Your task to perform on an android device: turn pop-ups on in chrome Image 0: 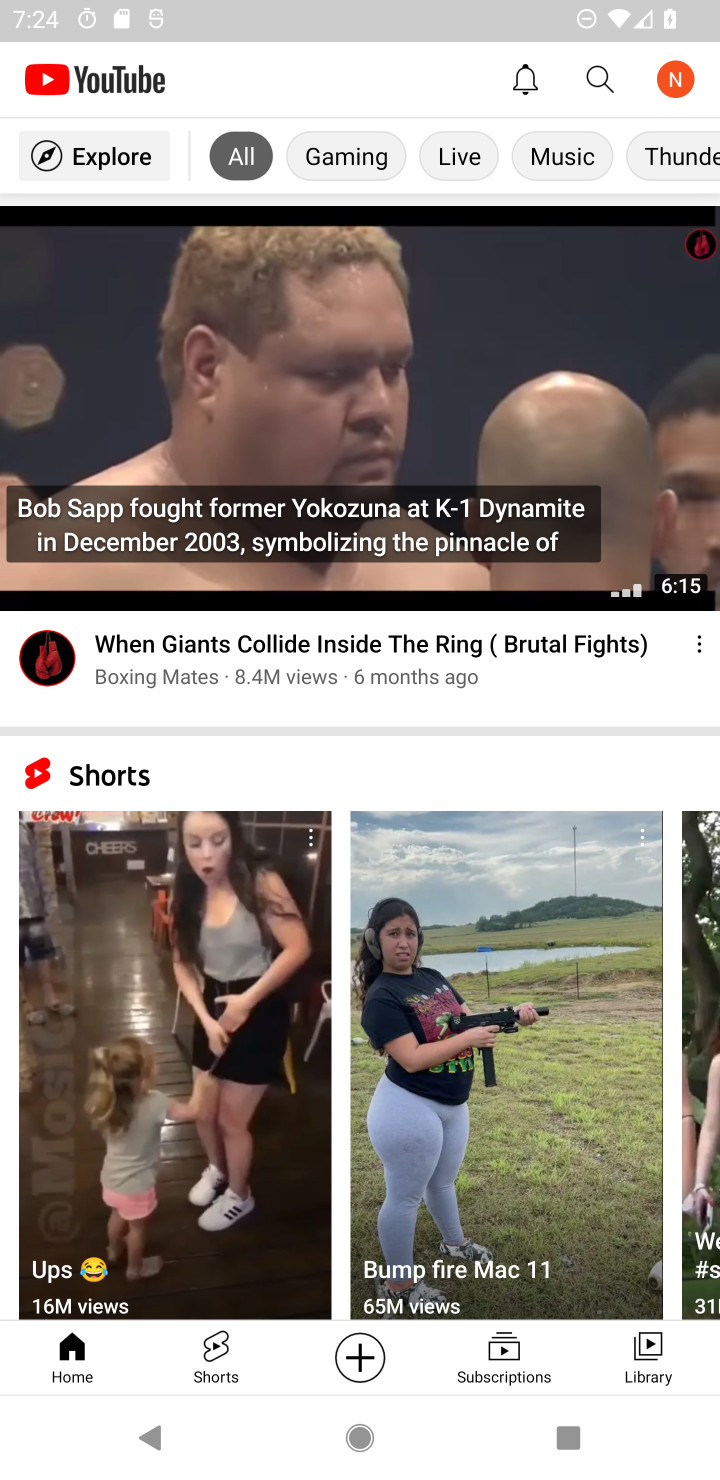
Step 0: drag from (350, 1062) to (360, 696)
Your task to perform on an android device: turn pop-ups on in chrome Image 1: 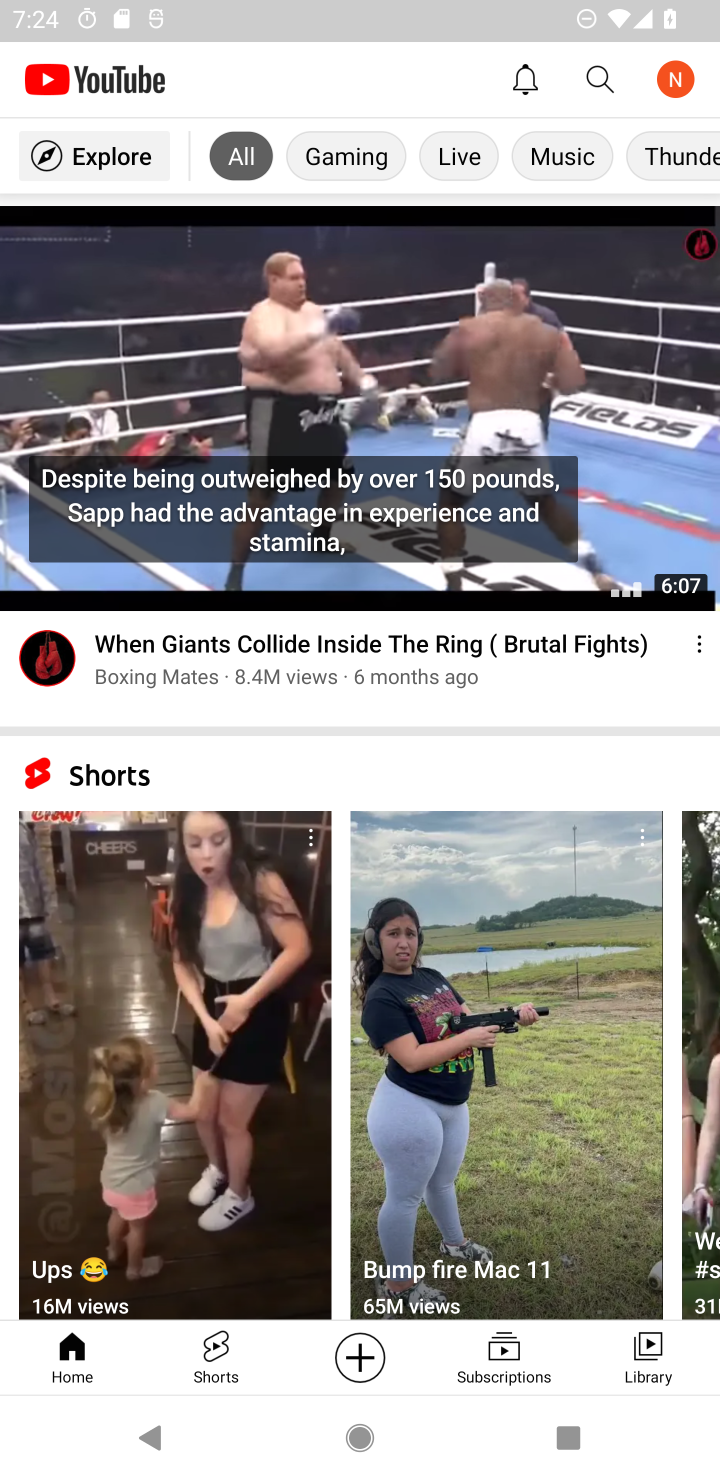
Step 1: drag from (341, 1254) to (484, 385)
Your task to perform on an android device: turn pop-ups on in chrome Image 2: 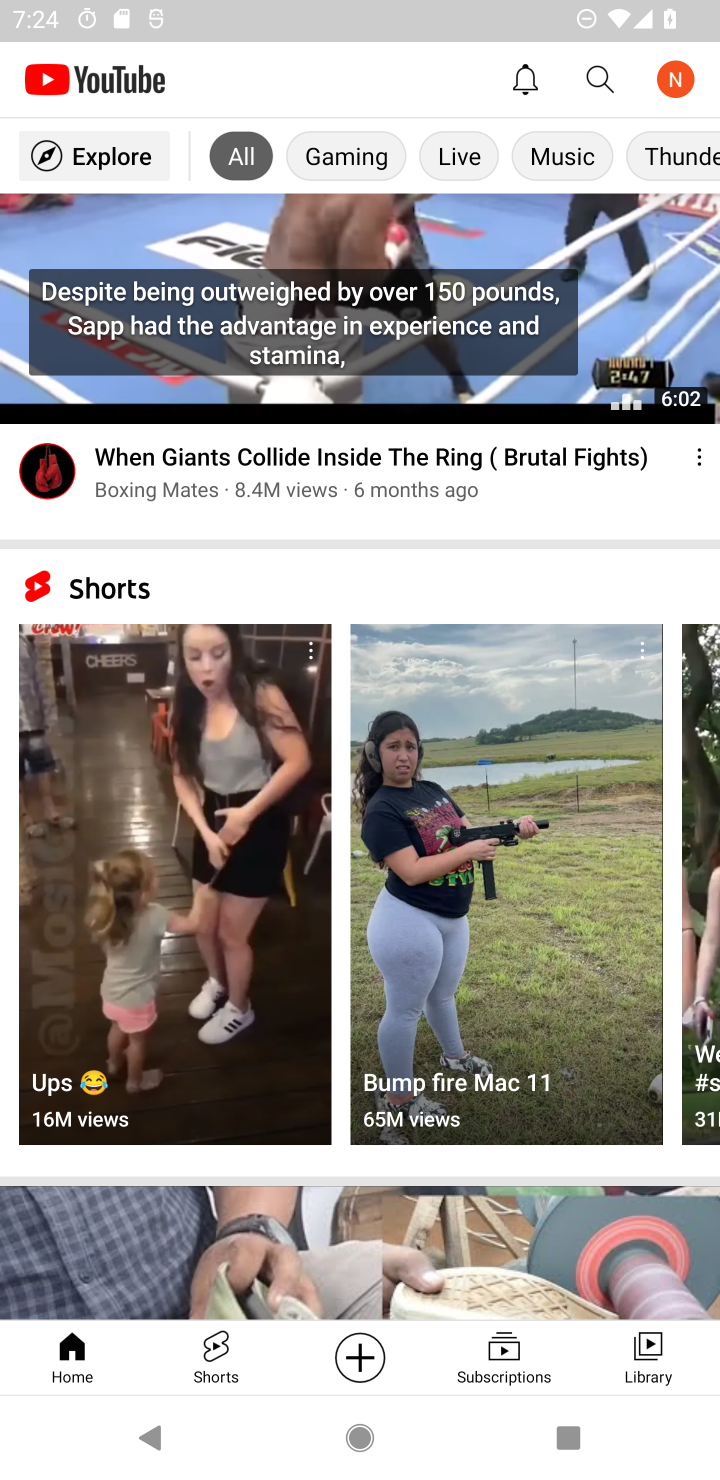
Step 2: click (390, 298)
Your task to perform on an android device: turn pop-ups on in chrome Image 3: 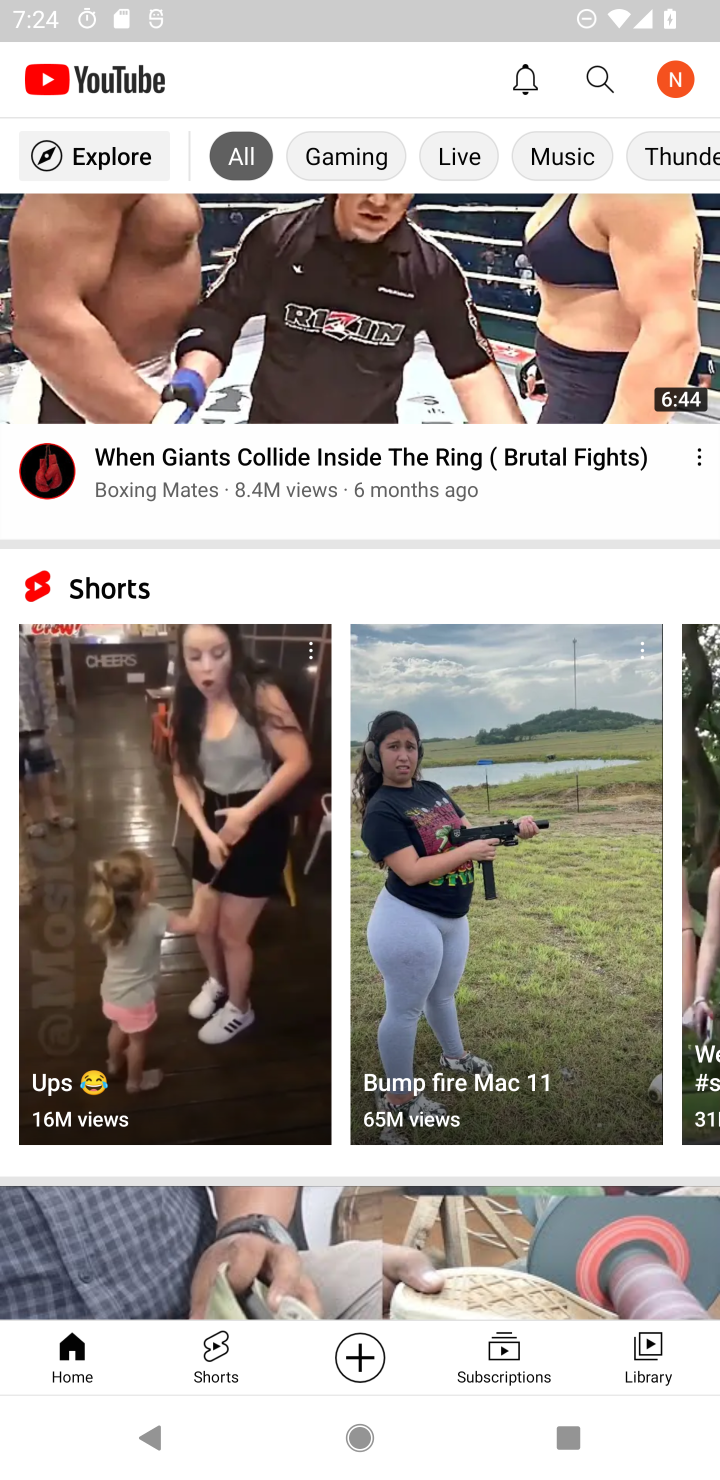
Step 3: drag from (390, 855) to (425, 599)
Your task to perform on an android device: turn pop-ups on in chrome Image 4: 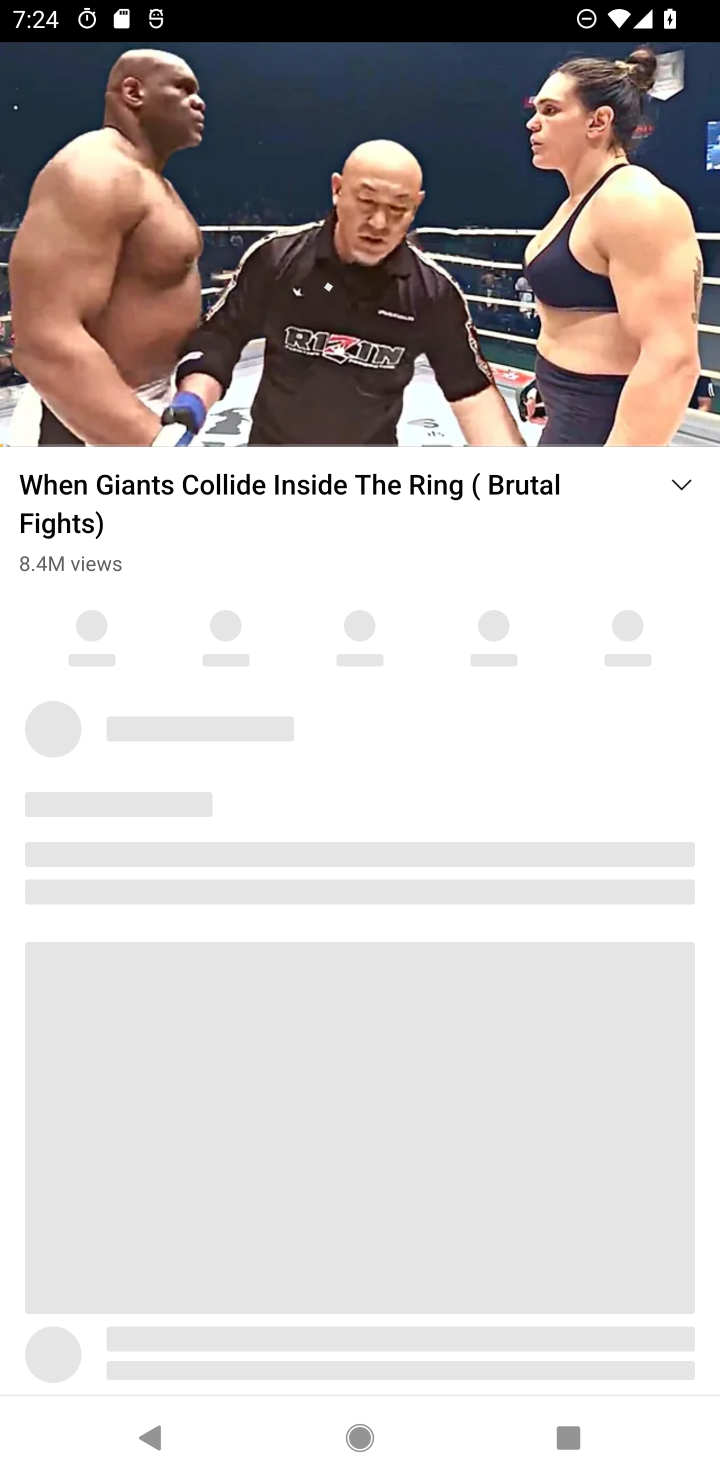
Step 4: drag from (509, 212) to (373, 1430)
Your task to perform on an android device: turn pop-ups on in chrome Image 5: 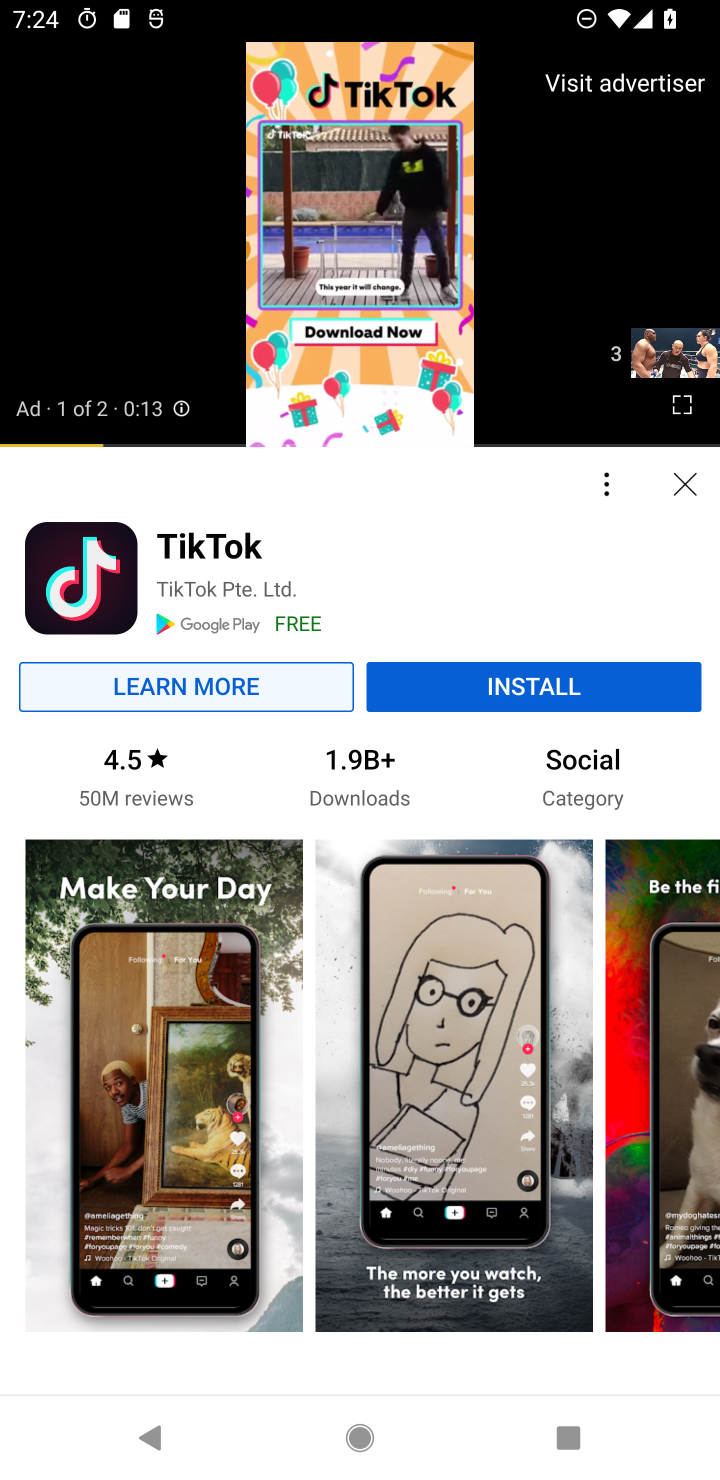
Step 5: drag from (478, 268) to (454, 1035)
Your task to perform on an android device: turn pop-ups on in chrome Image 6: 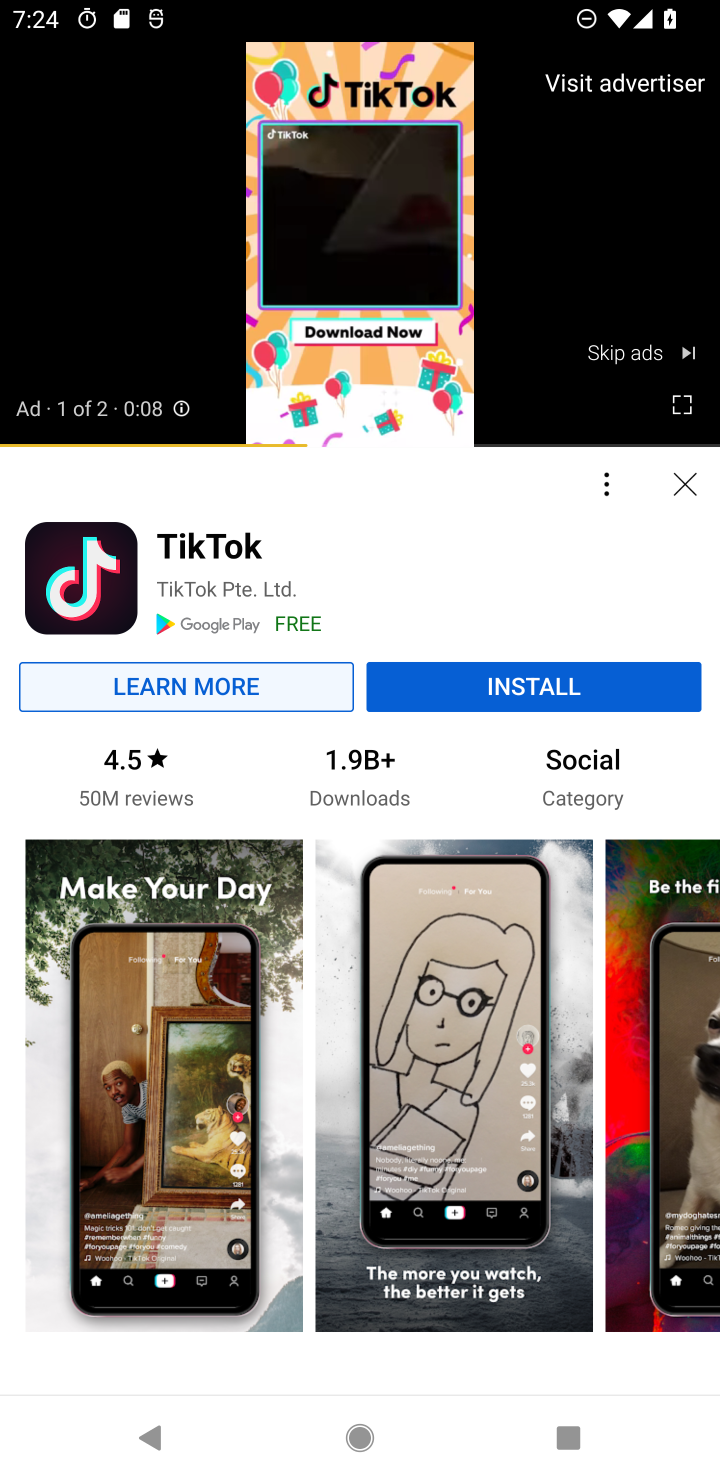
Step 6: press back button
Your task to perform on an android device: turn pop-ups on in chrome Image 7: 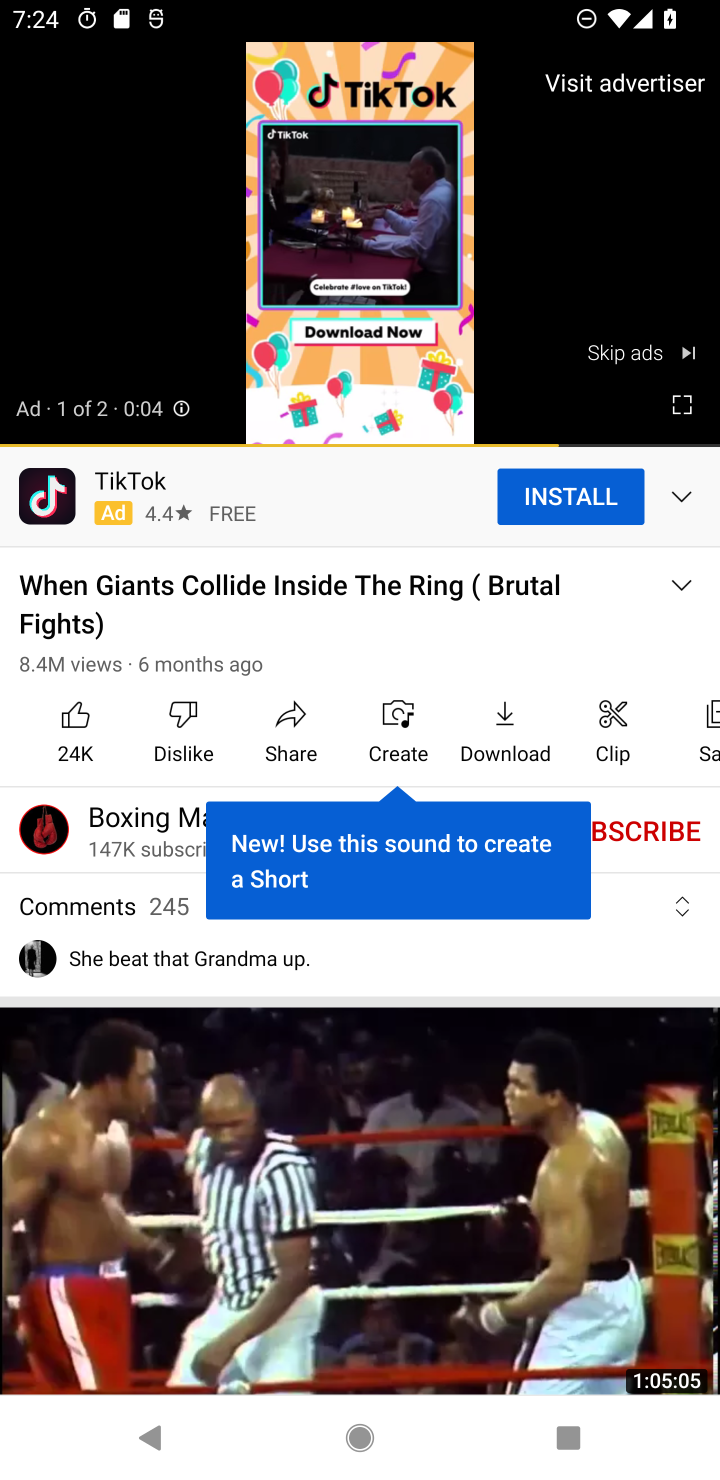
Step 7: drag from (361, 335) to (504, 1457)
Your task to perform on an android device: turn pop-ups on in chrome Image 8: 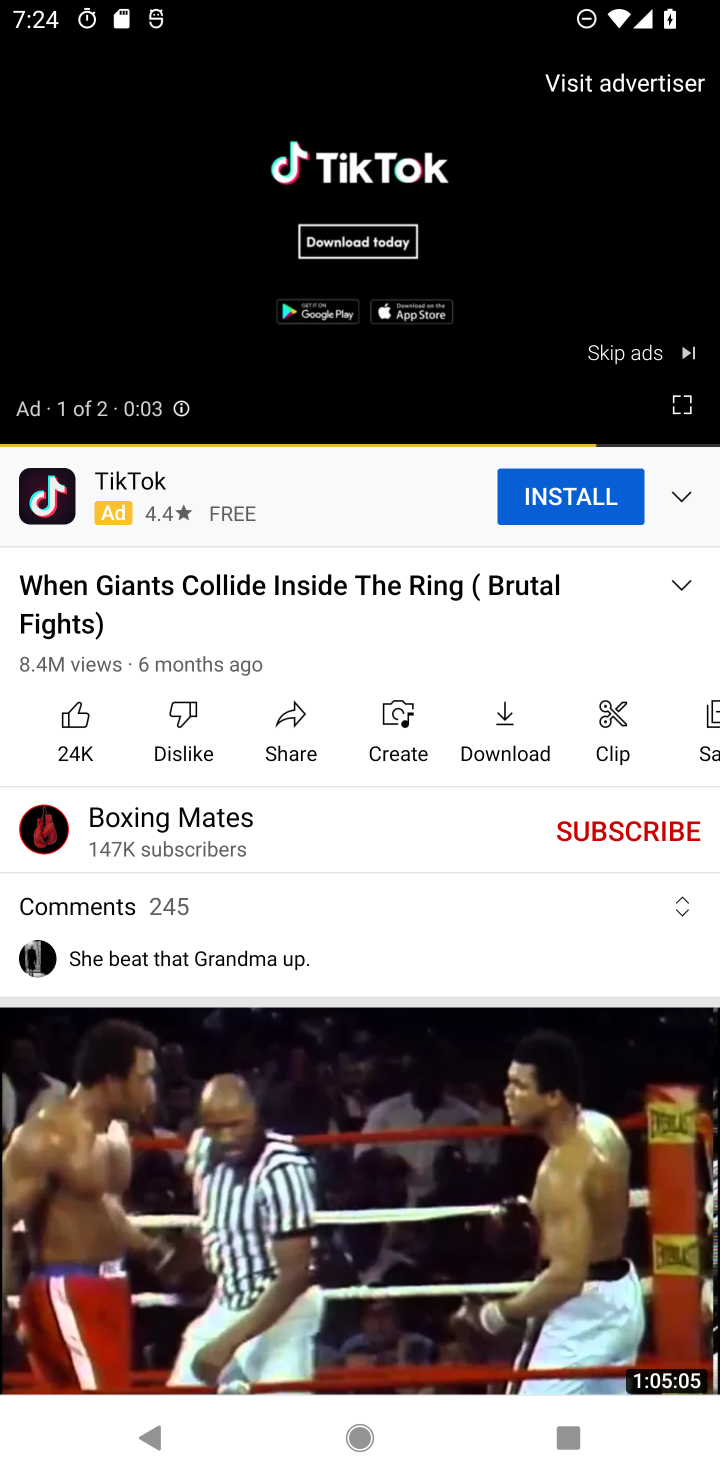
Step 8: click (360, 247)
Your task to perform on an android device: turn pop-ups on in chrome Image 9: 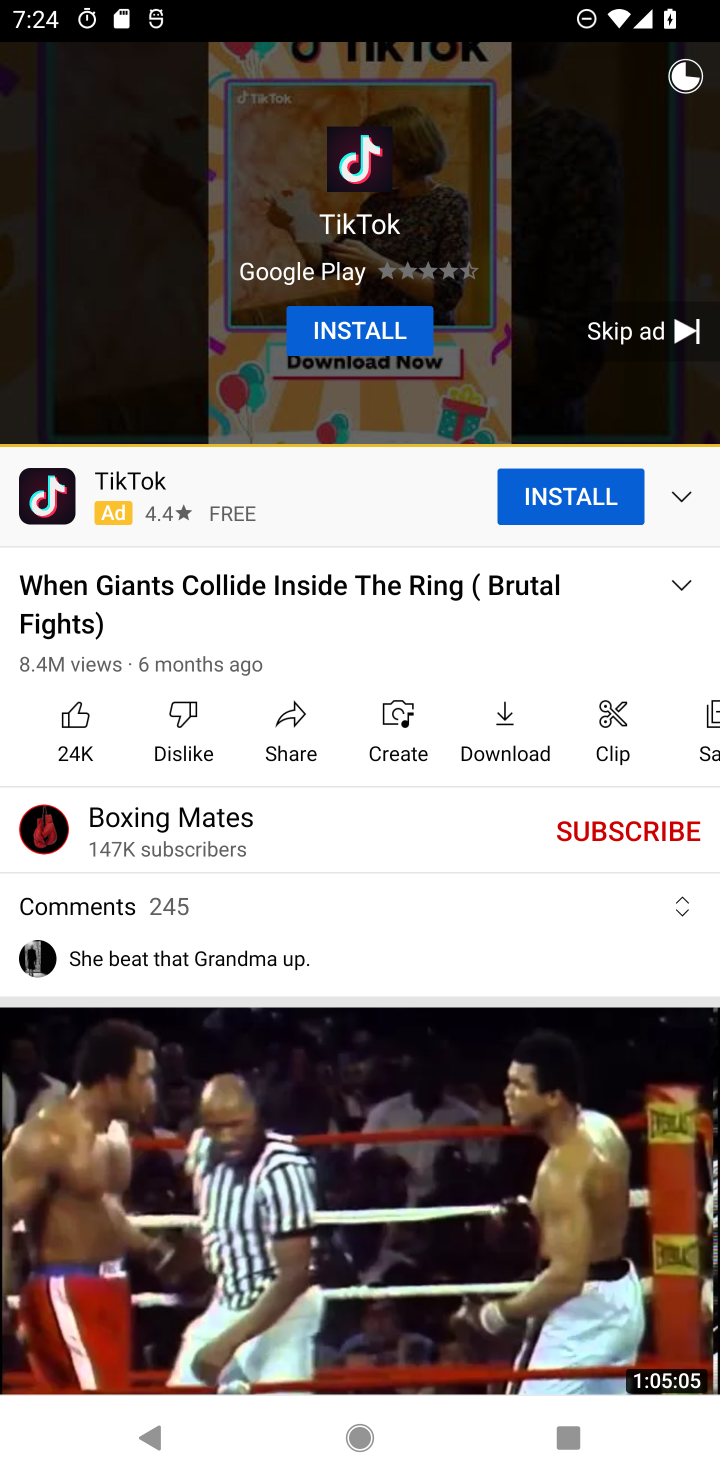
Step 9: press home button
Your task to perform on an android device: turn pop-ups on in chrome Image 10: 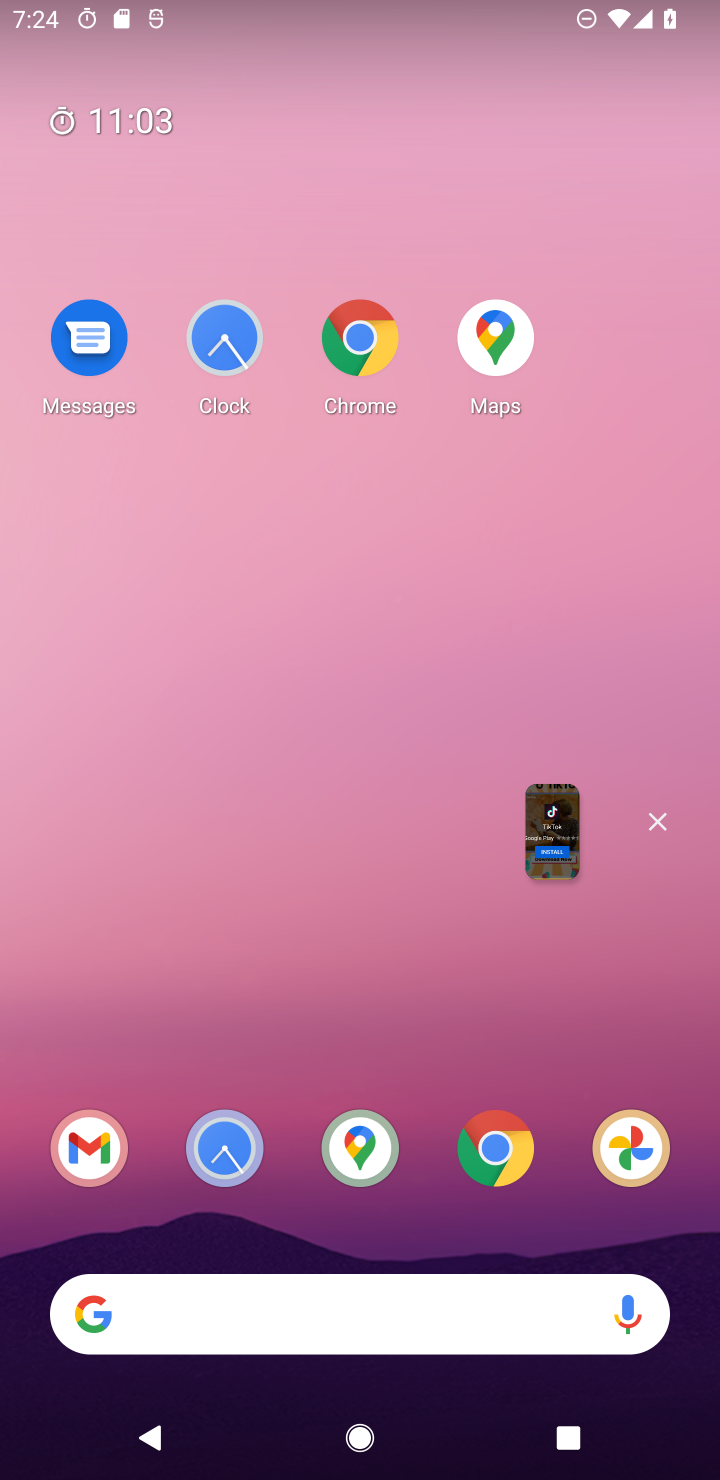
Step 10: press home button
Your task to perform on an android device: turn pop-ups on in chrome Image 11: 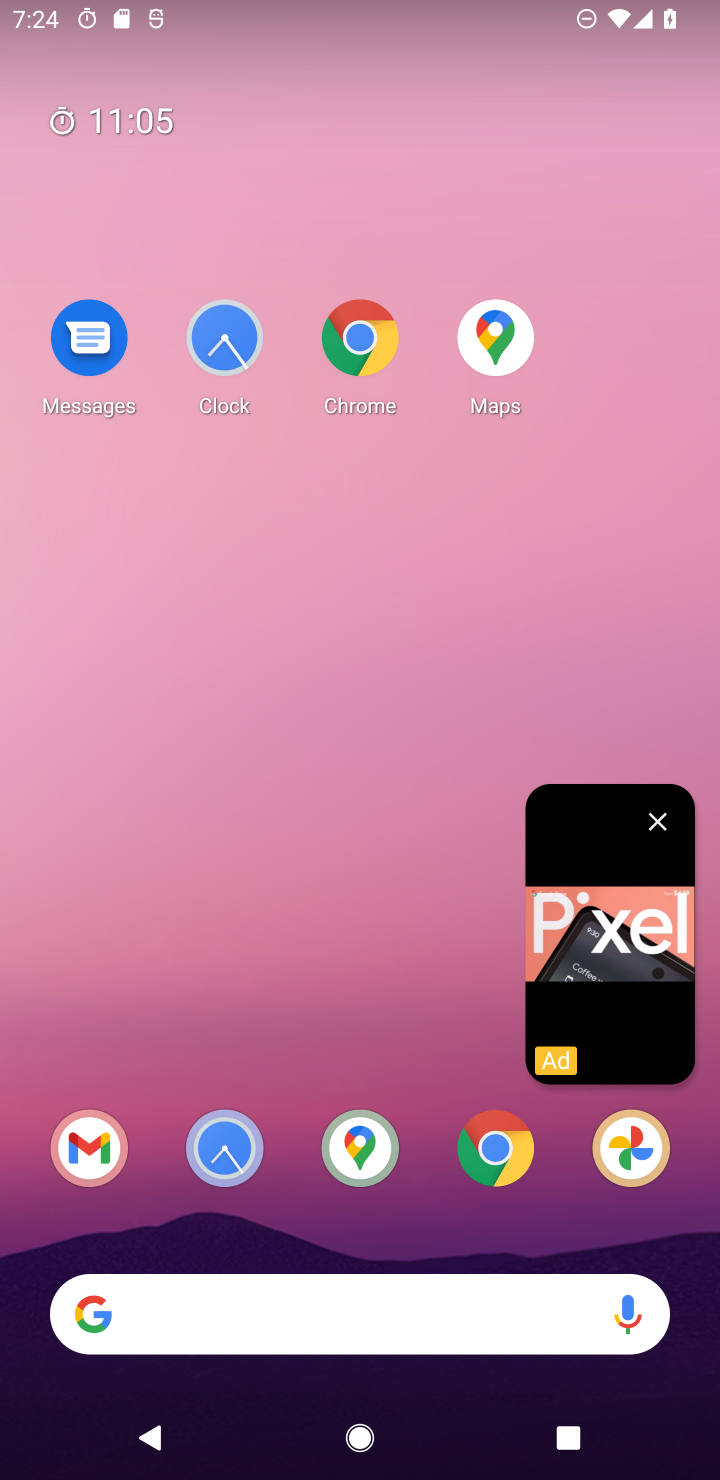
Step 11: click (663, 815)
Your task to perform on an android device: turn pop-ups on in chrome Image 12: 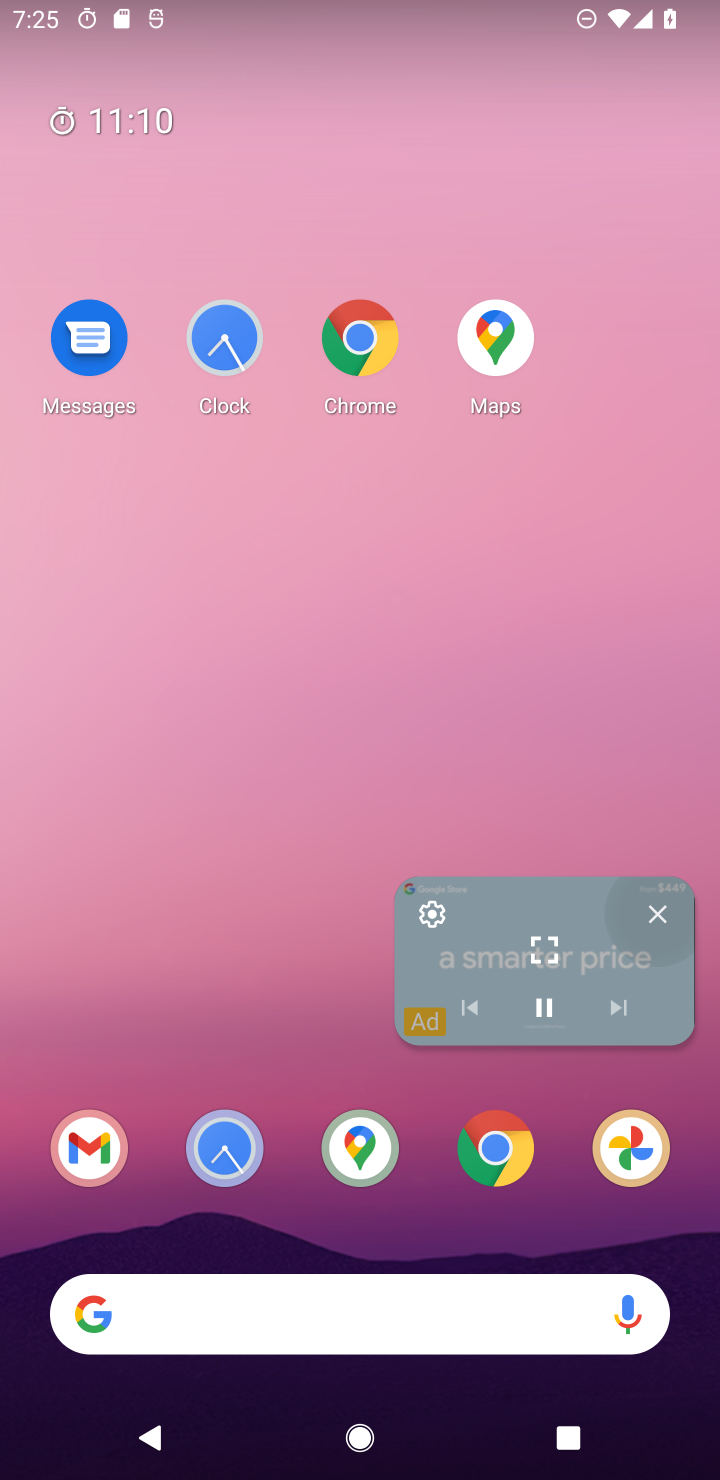
Step 12: click (657, 909)
Your task to perform on an android device: turn pop-ups on in chrome Image 13: 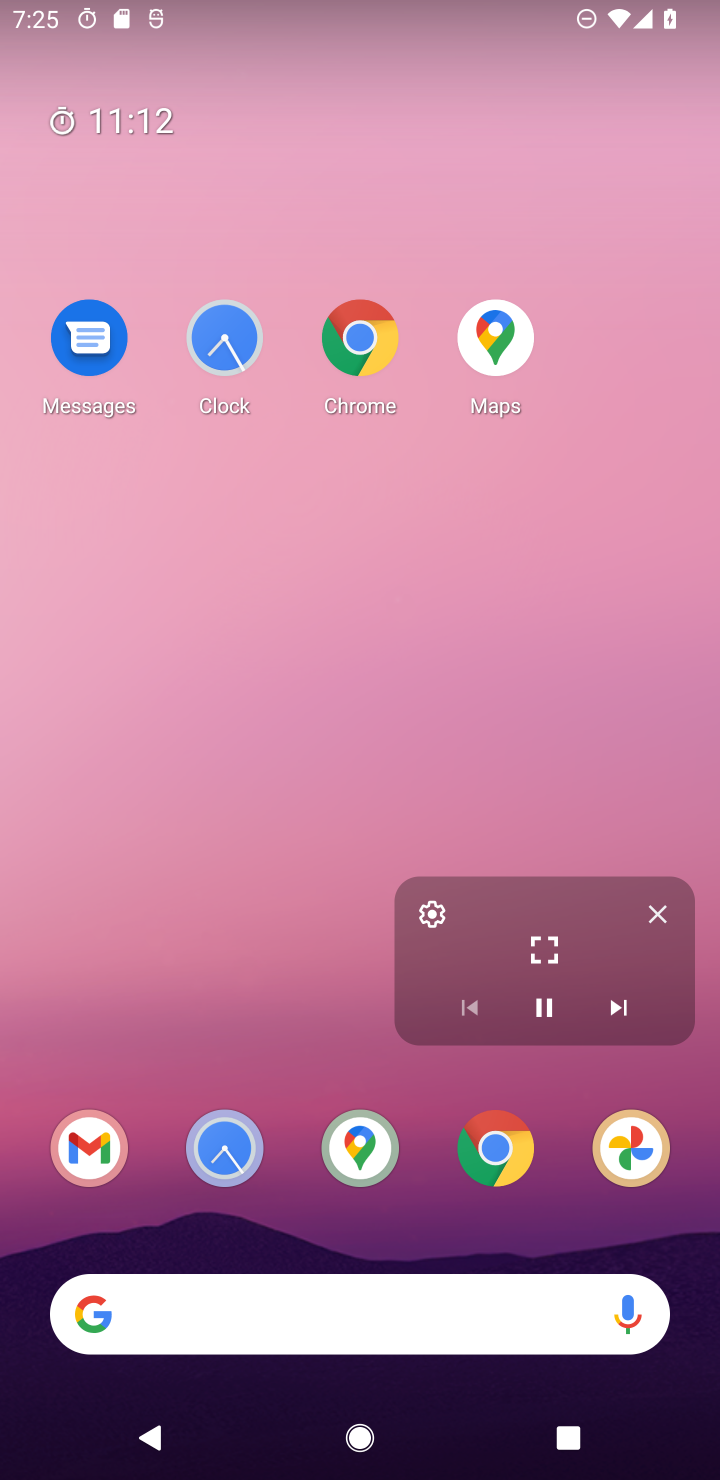
Step 13: drag from (368, 1199) to (489, 448)
Your task to perform on an android device: turn pop-ups on in chrome Image 14: 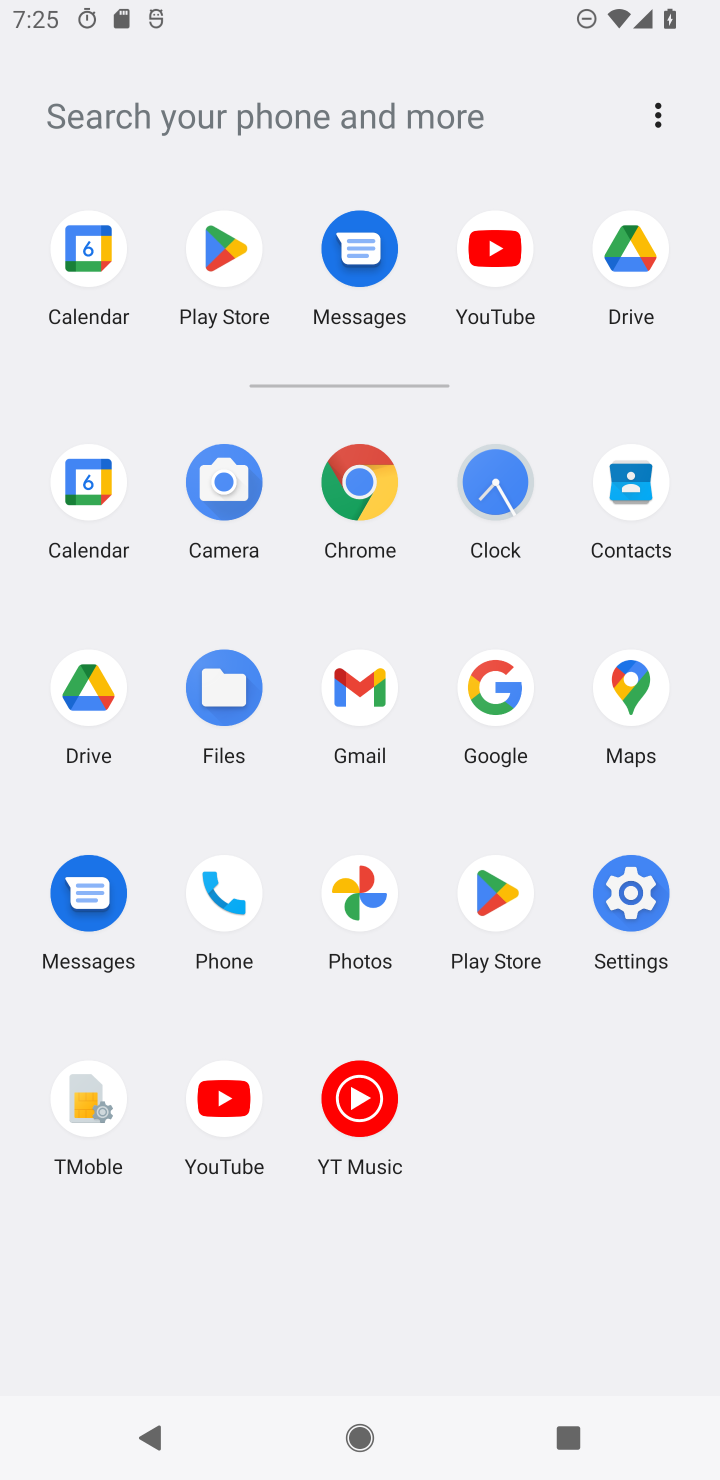
Step 14: click (342, 470)
Your task to perform on an android device: turn pop-ups on in chrome Image 15: 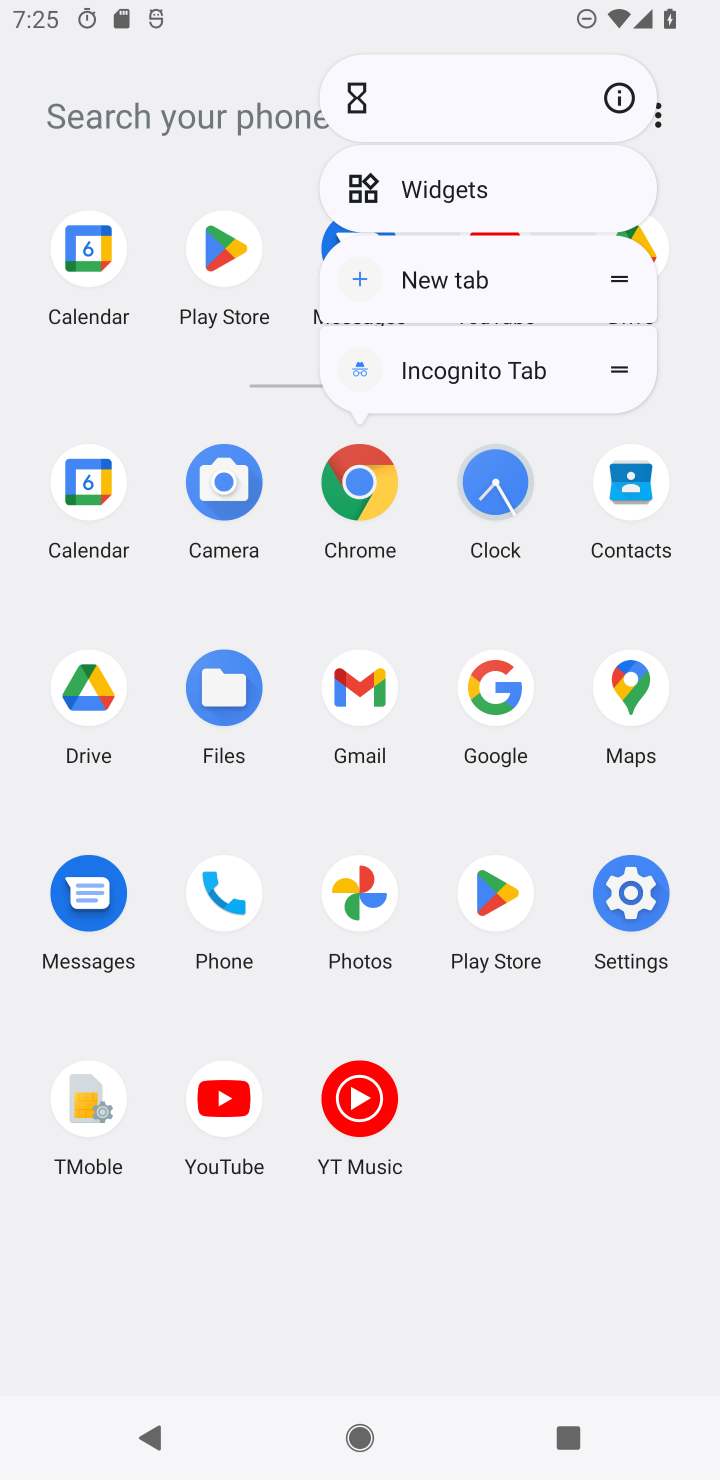
Step 15: click (616, 71)
Your task to perform on an android device: turn pop-ups on in chrome Image 16: 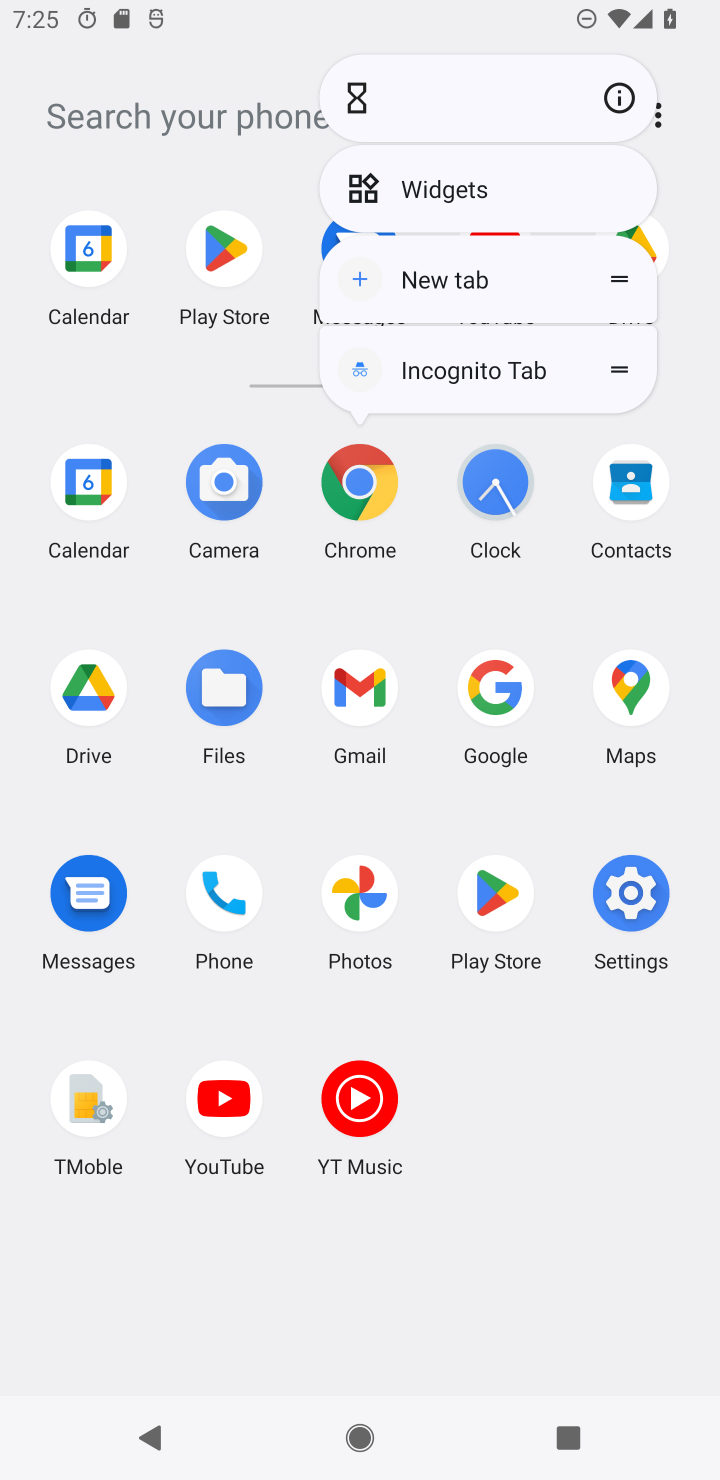
Step 16: click (590, 108)
Your task to perform on an android device: turn pop-ups on in chrome Image 17: 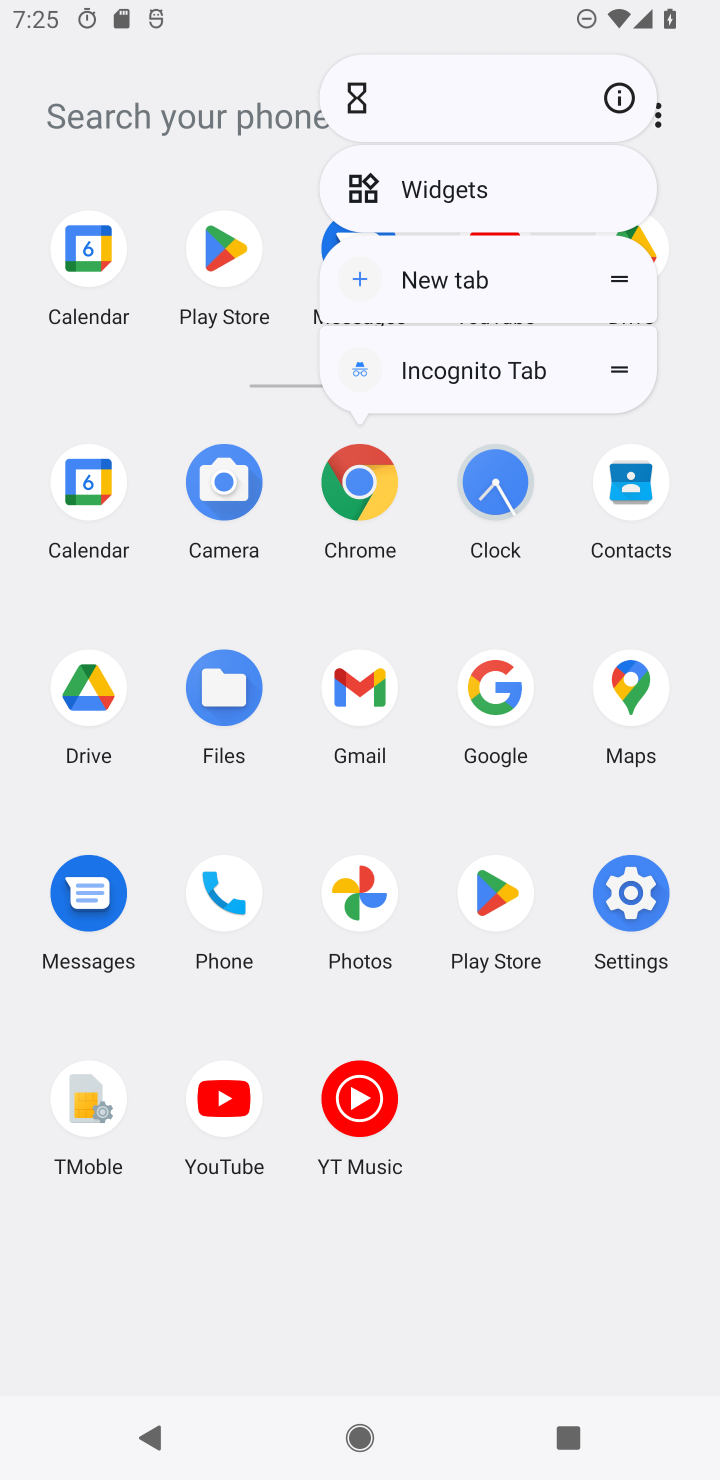
Step 17: click (616, 87)
Your task to perform on an android device: turn pop-ups on in chrome Image 18: 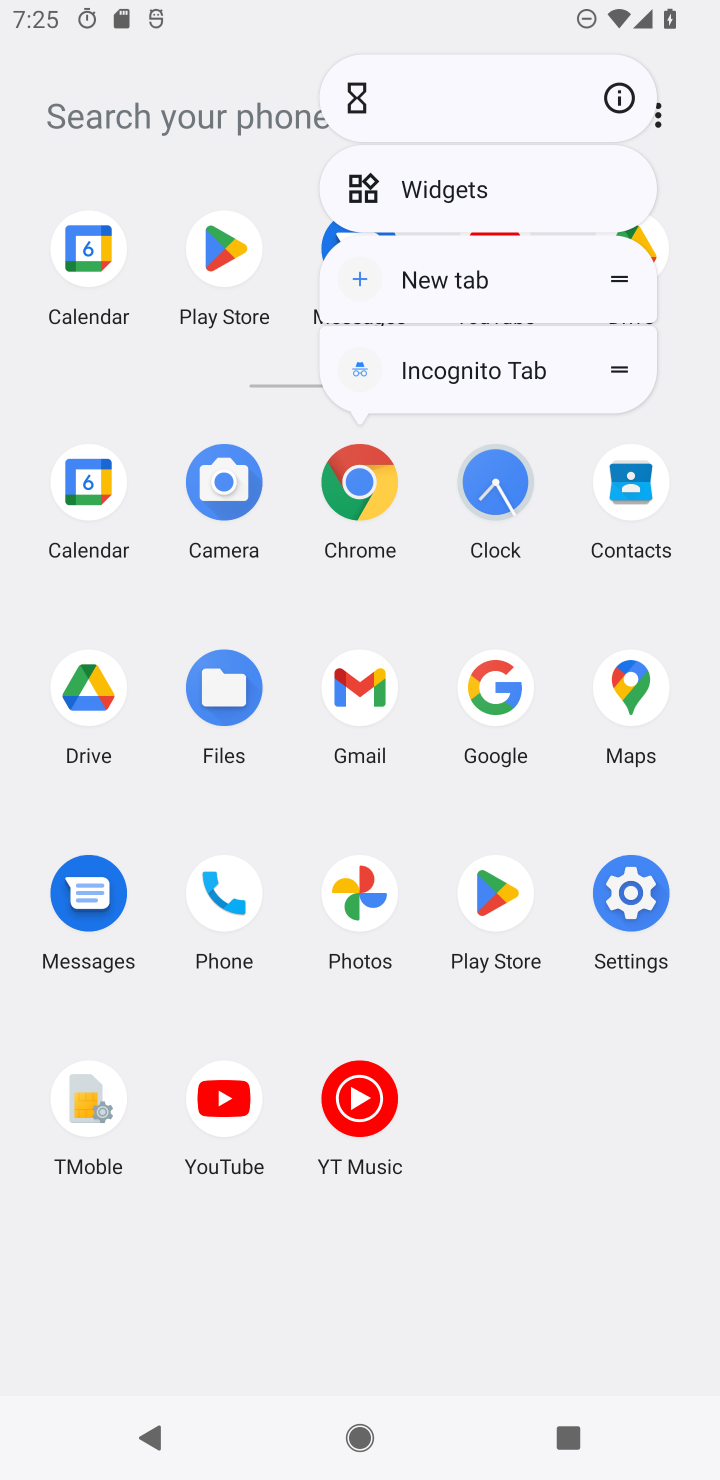
Step 18: click (353, 473)
Your task to perform on an android device: turn pop-ups on in chrome Image 19: 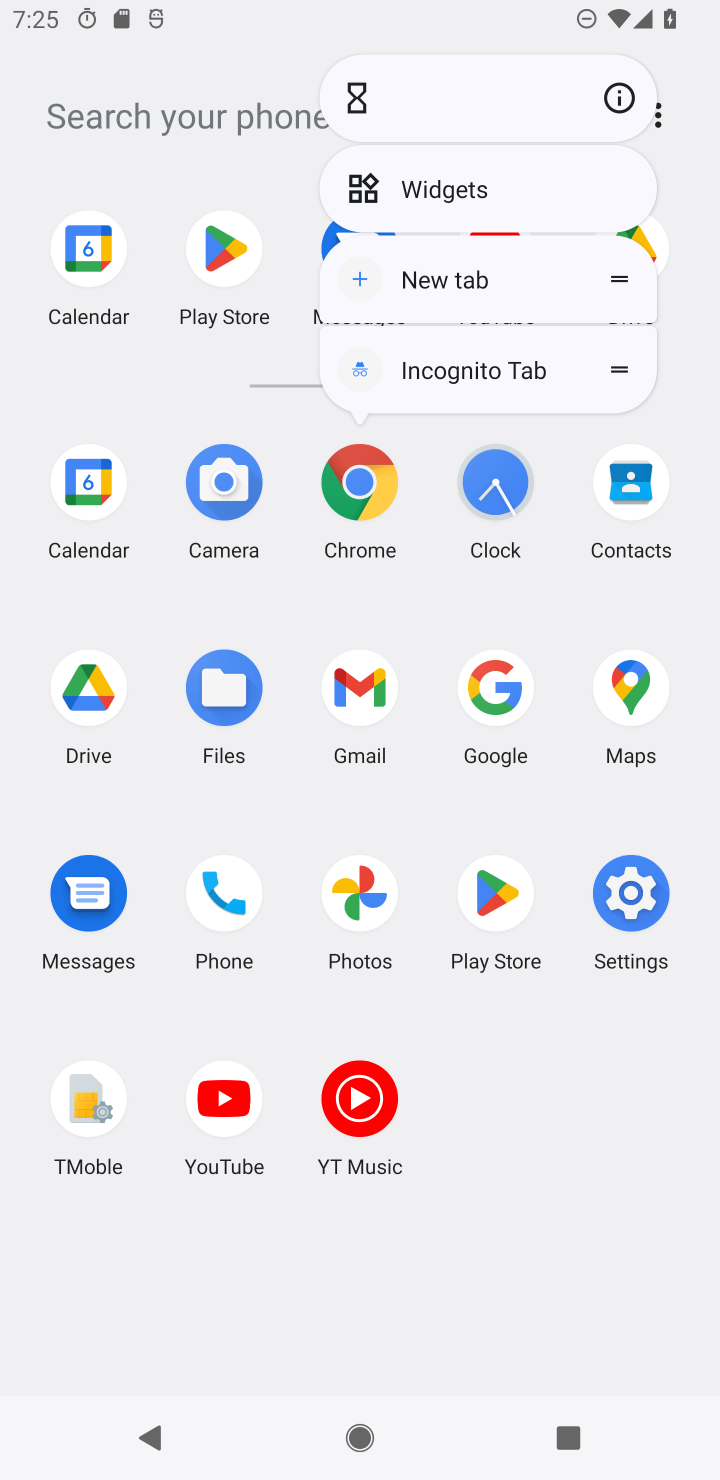
Step 19: click (380, 477)
Your task to perform on an android device: turn pop-ups on in chrome Image 20: 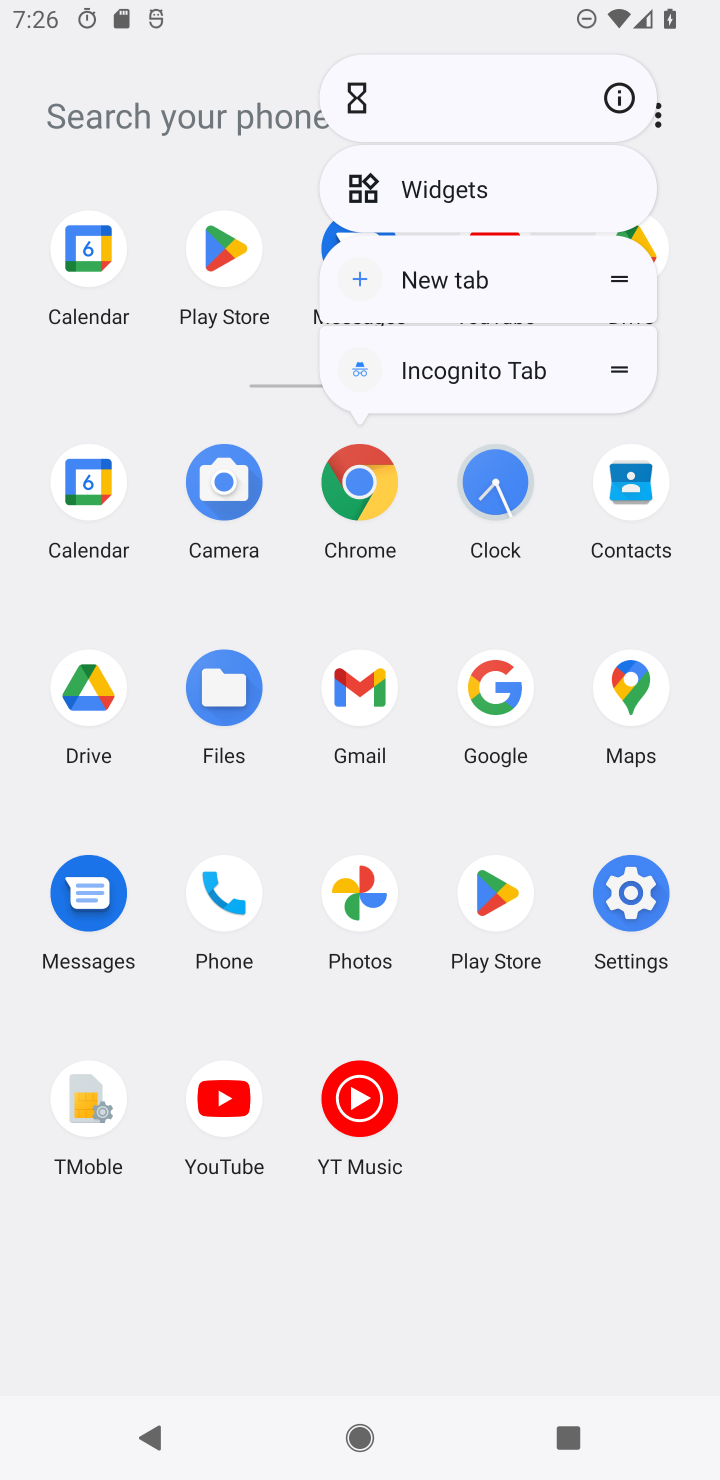
Step 20: drag from (460, 798) to (477, 493)
Your task to perform on an android device: turn pop-ups on in chrome Image 21: 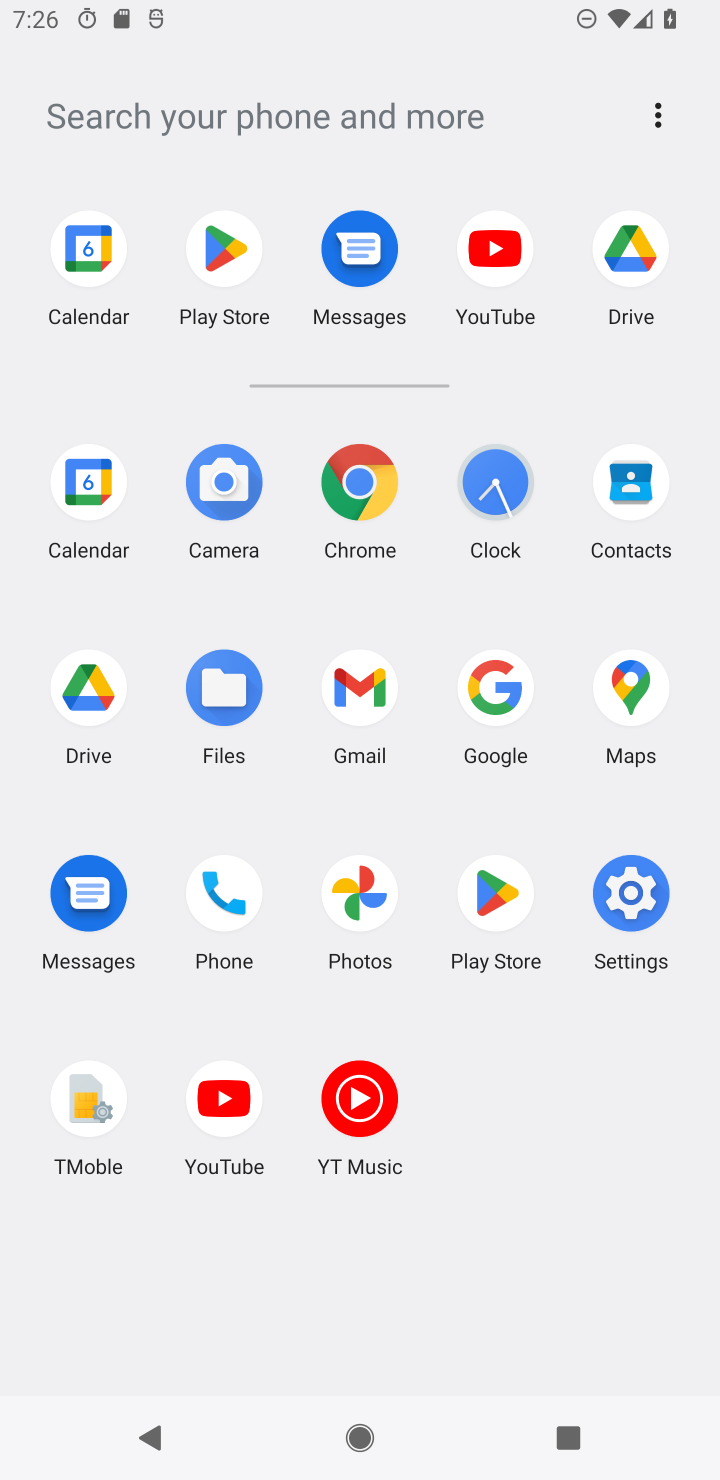
Step 21: click (331, 486)
Your task to perform on an android device: turn pop-ups on in chrome Image 22: 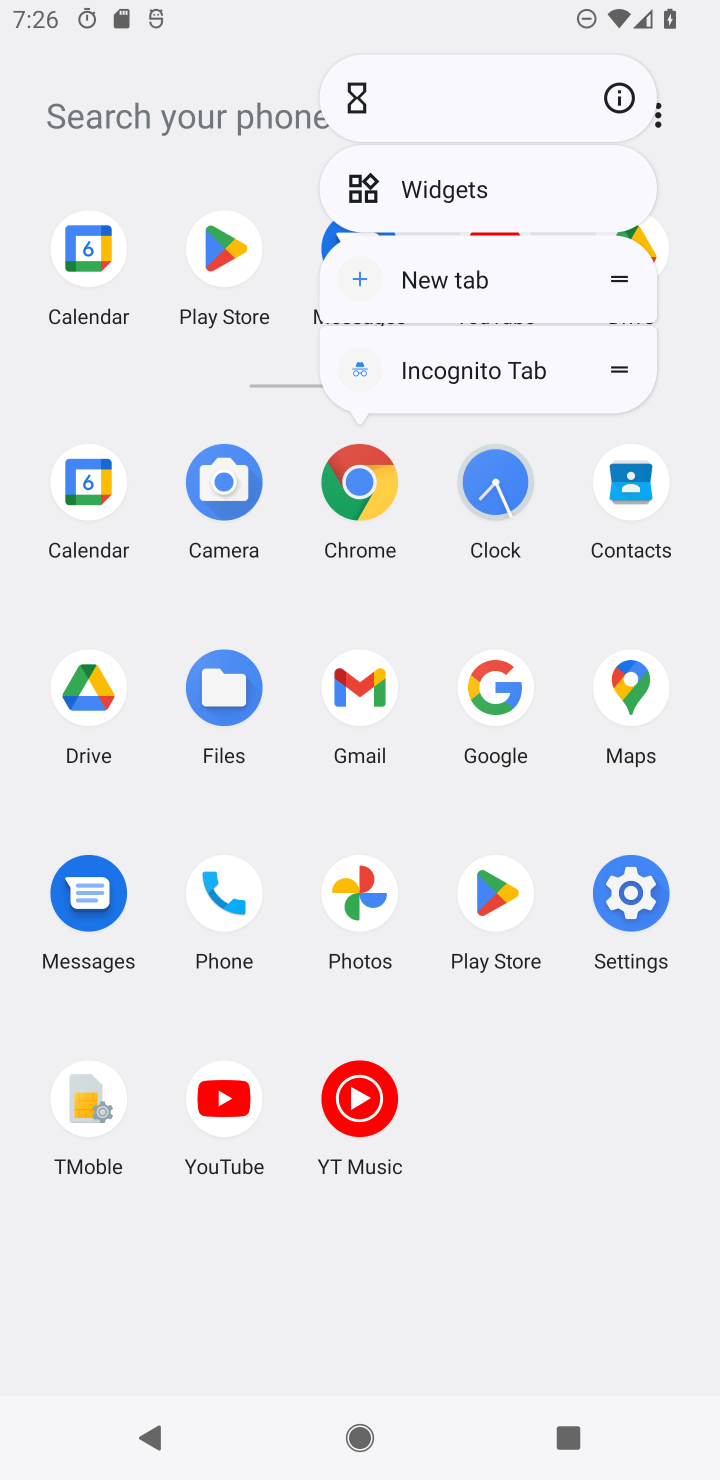
Step 22: click (619, 98)
Your task to perform on an android device: turn pop-ups on in chrome Image 23: 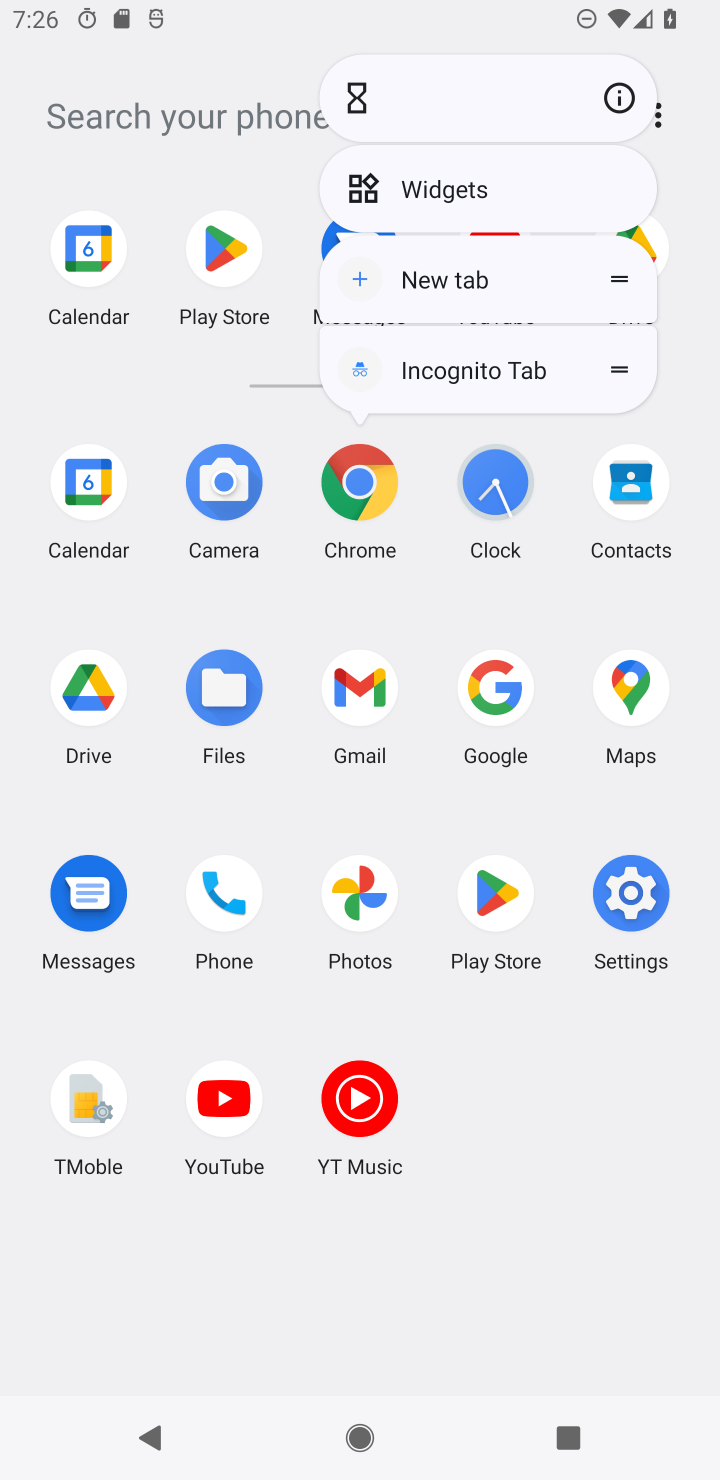
Step 23: click (350, 474)
Your task to perform on an android device: turn pop-ups on in chrome Image 24: 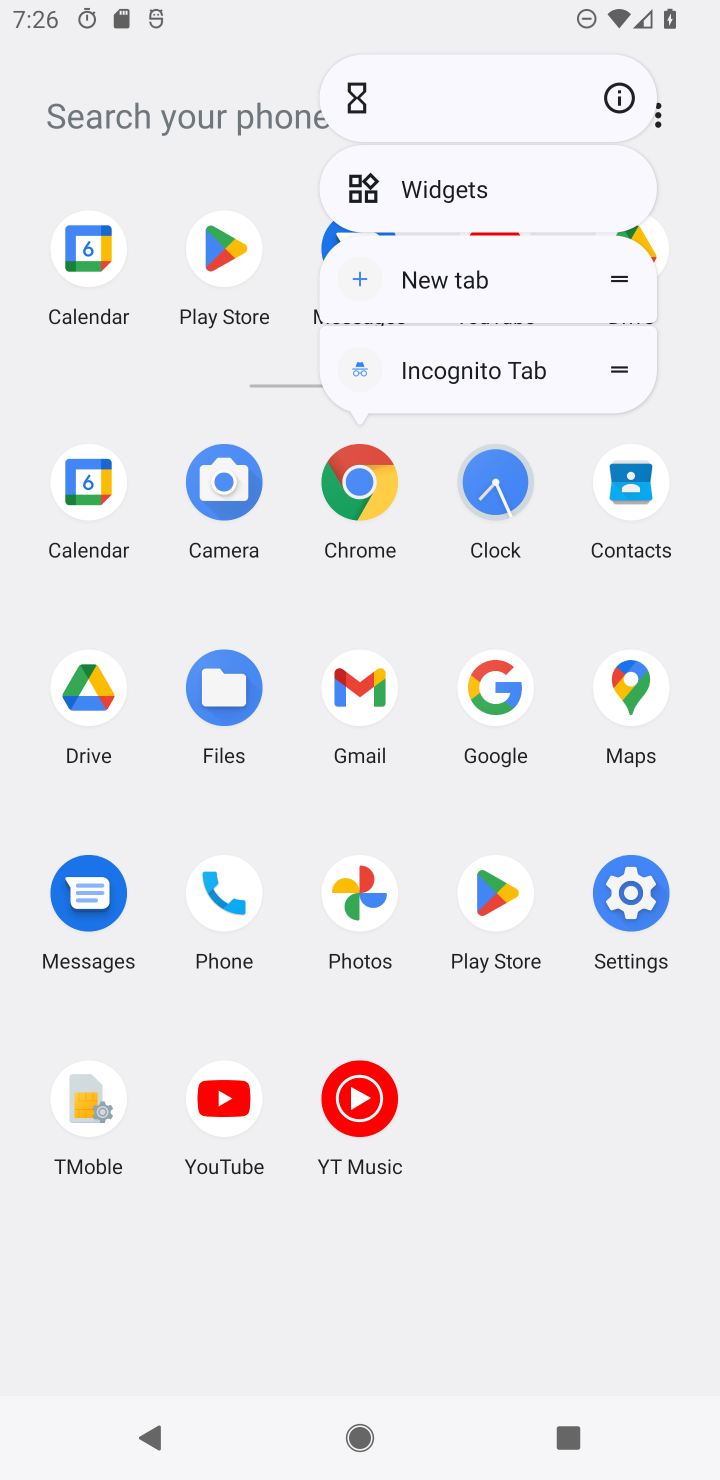
Step 24: click (365, 500)
Your task to perform on an android device: turn pop-ups on in chrome Image 25: 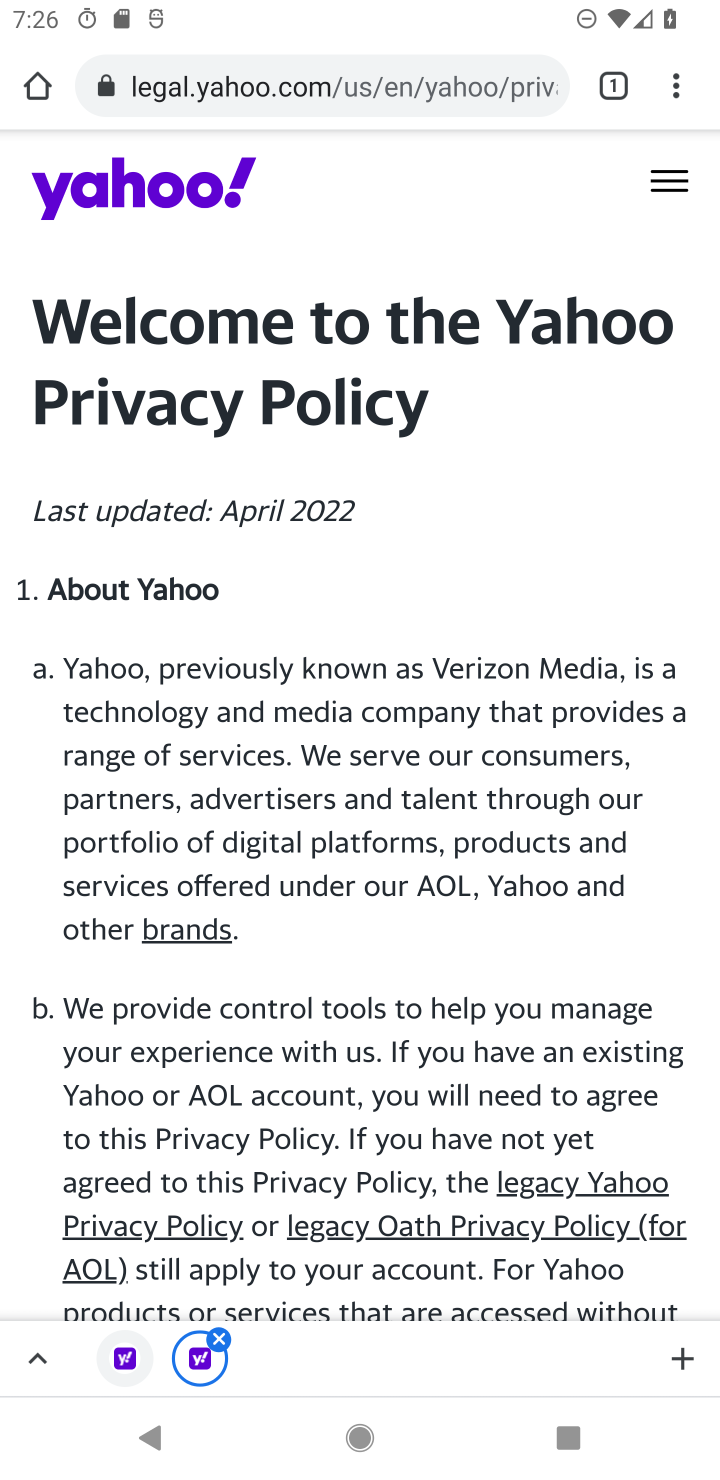
Step 25: drag from (665, 90) to (448, 1168)
Your task to perform on an android device: turn pop-ups on in chrome Image 26: 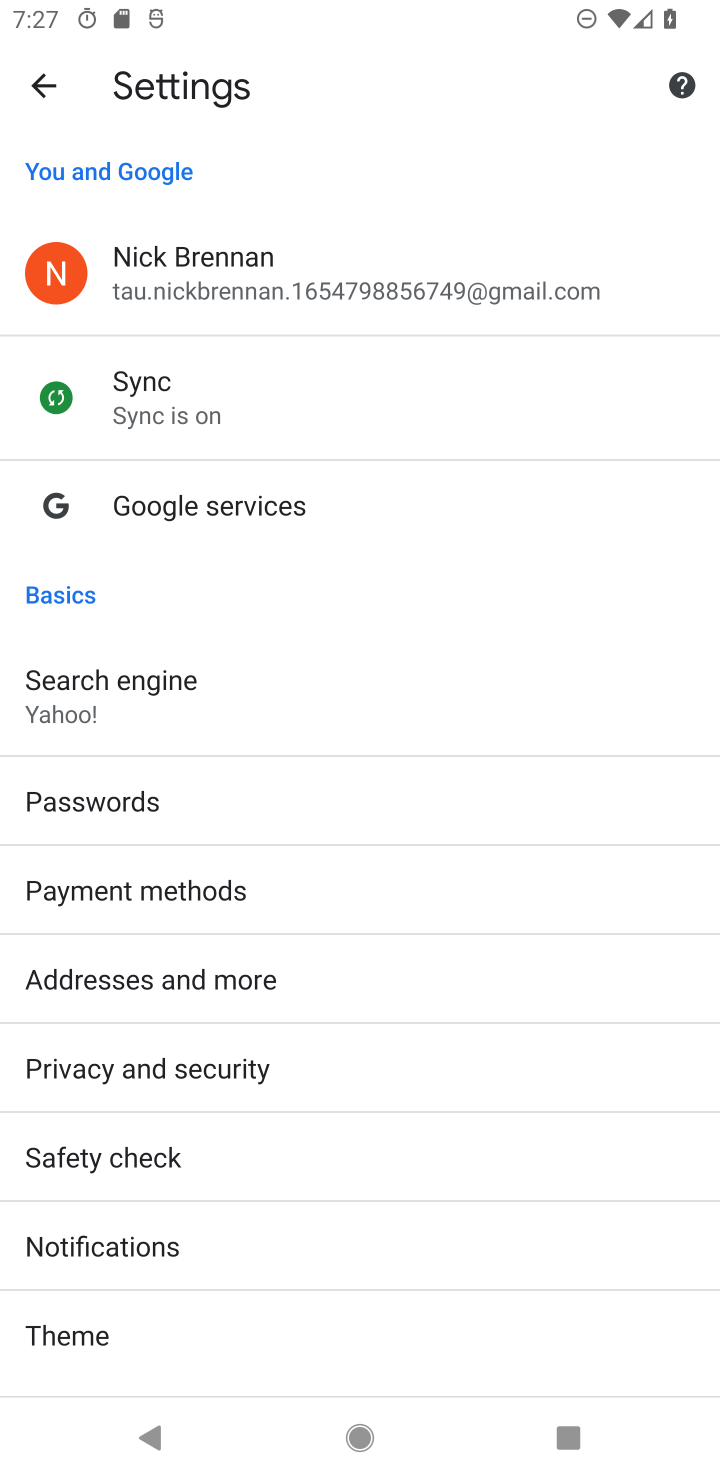
Step 26: drag from (285, 1225) to (325, 579)
Your task to perform on an android device: turn pop-ups on in chrome Image 27: 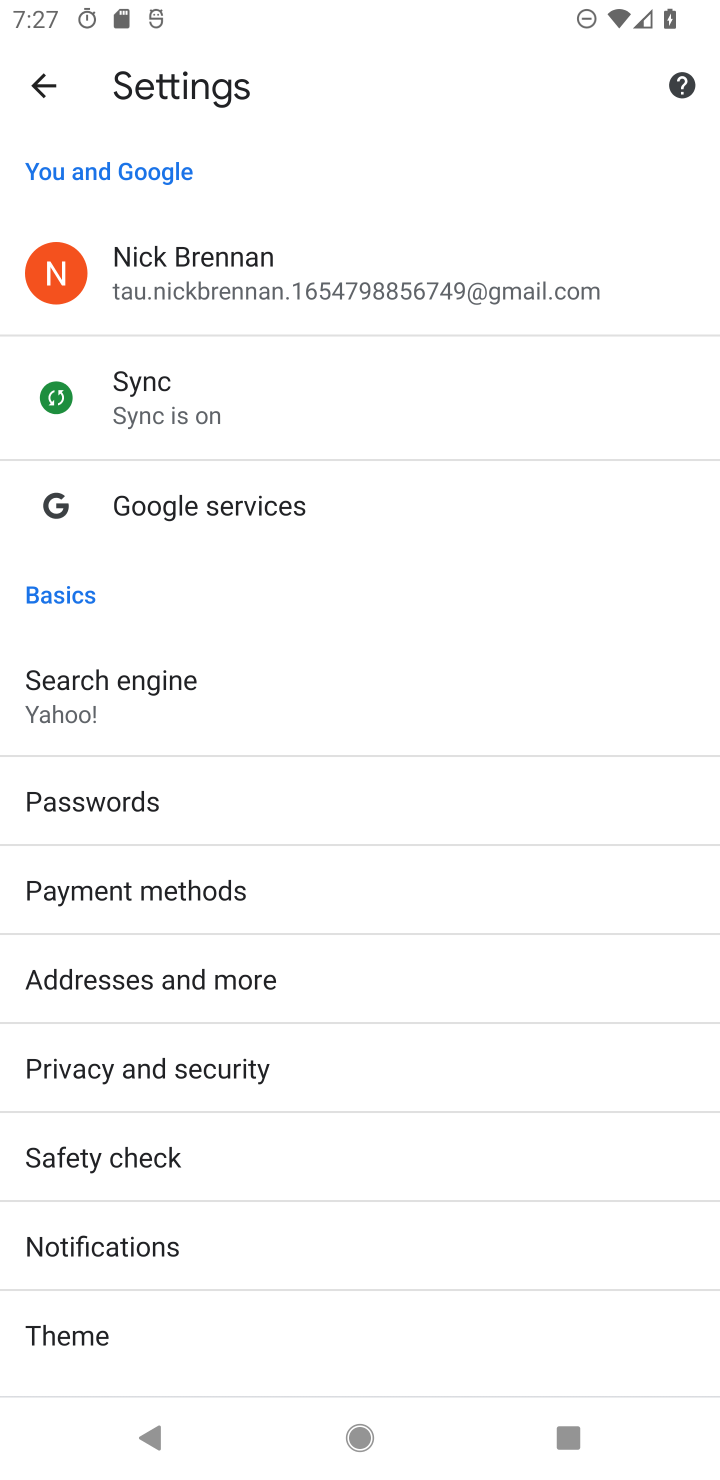
Step 27: drag from (281, 1091) to (346, 540)
Your task to perform on an android device: turn pop-ups on in chrome Image 28: 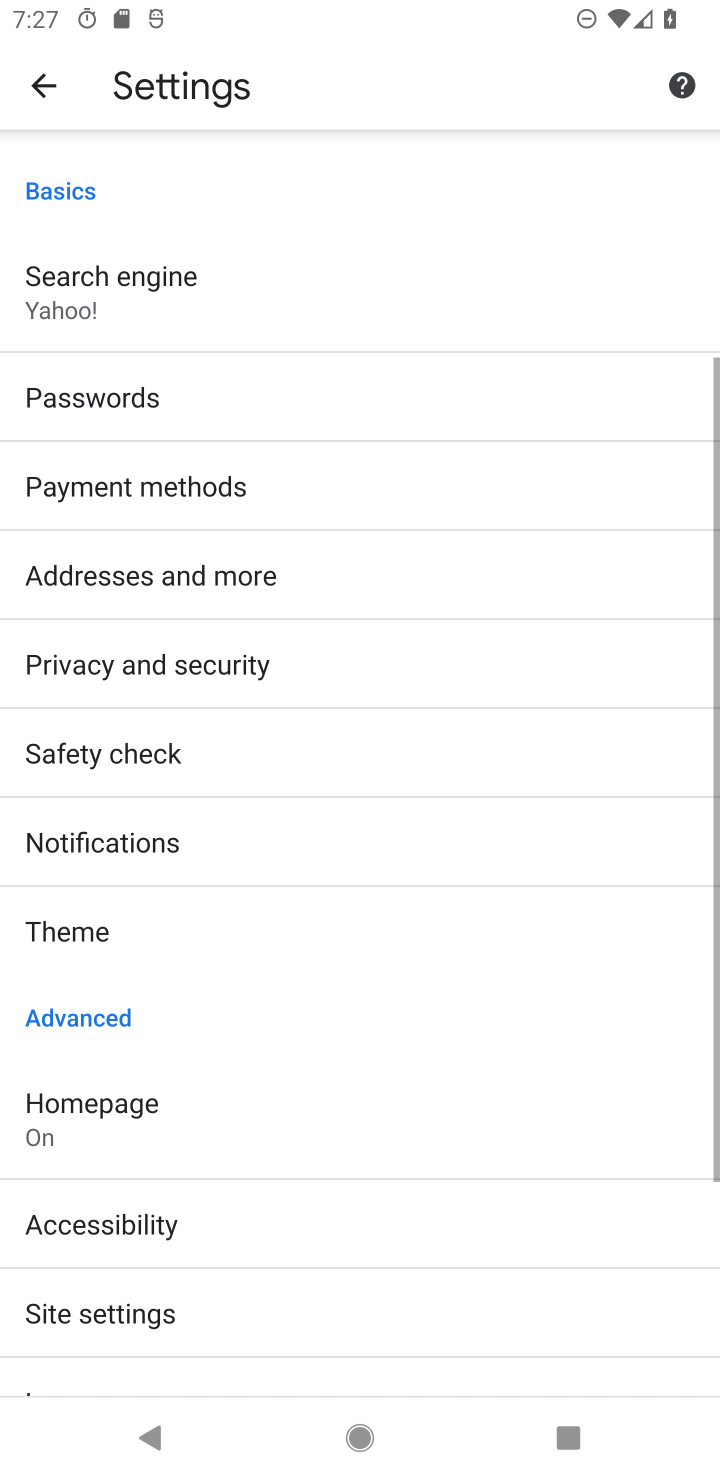
Step 28: drag from (444, 1167) to (537, 345)
Your task to perform on an android device: turn pop-ups on in chrome Image 29: 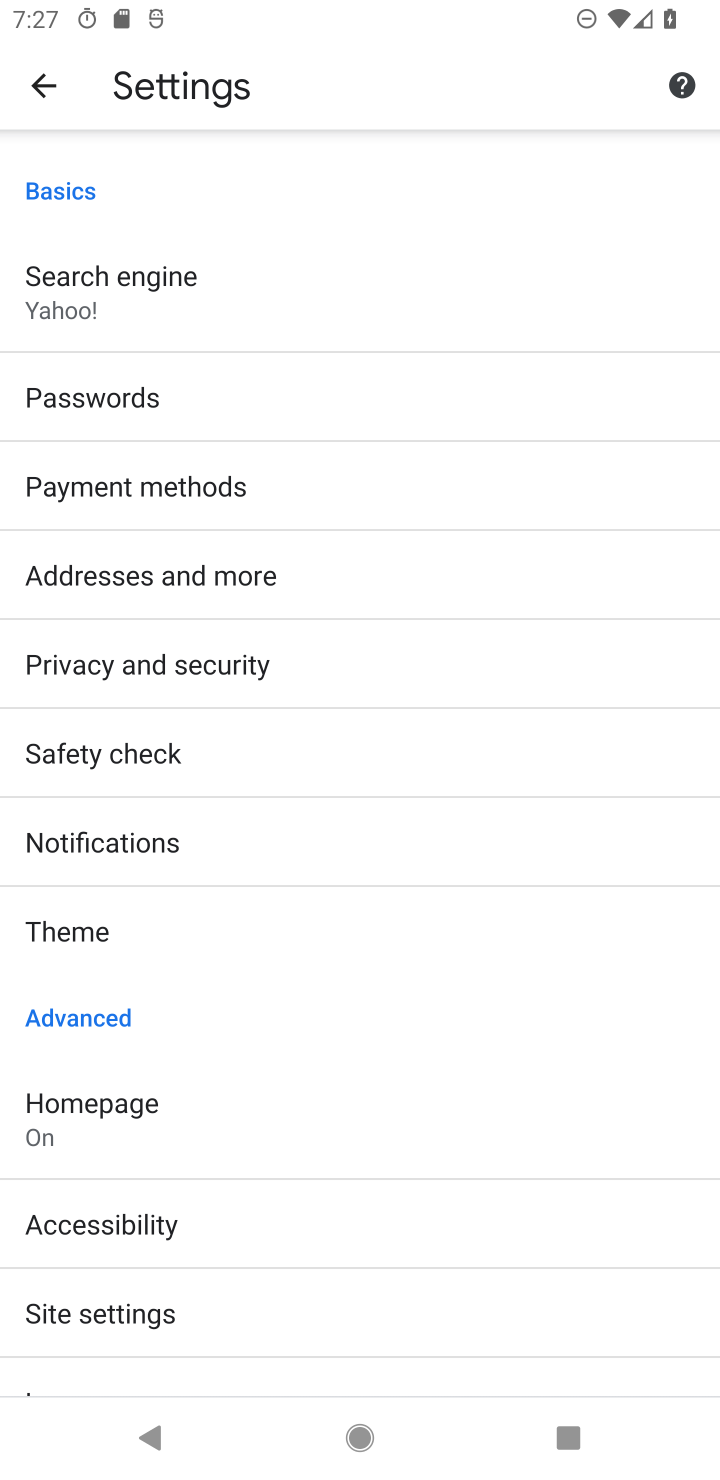
Step 29: click (193, 1300)
Your task to perform on an android device: turn pop-ups on in chrome Image 30: 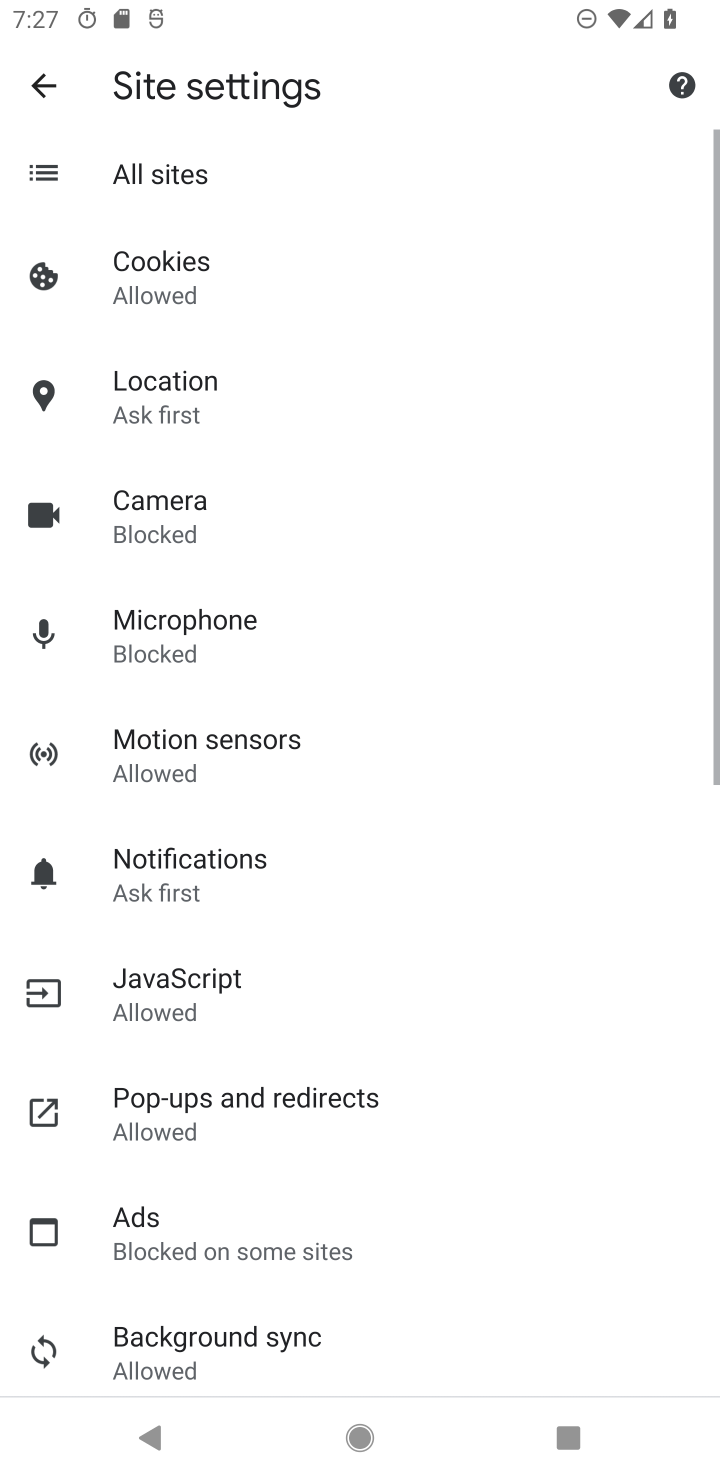
Step 30: drag from (289, 1122) to (407, 428)
Your task to perform on an android device: turn pop-ups on in chrome Image 31: 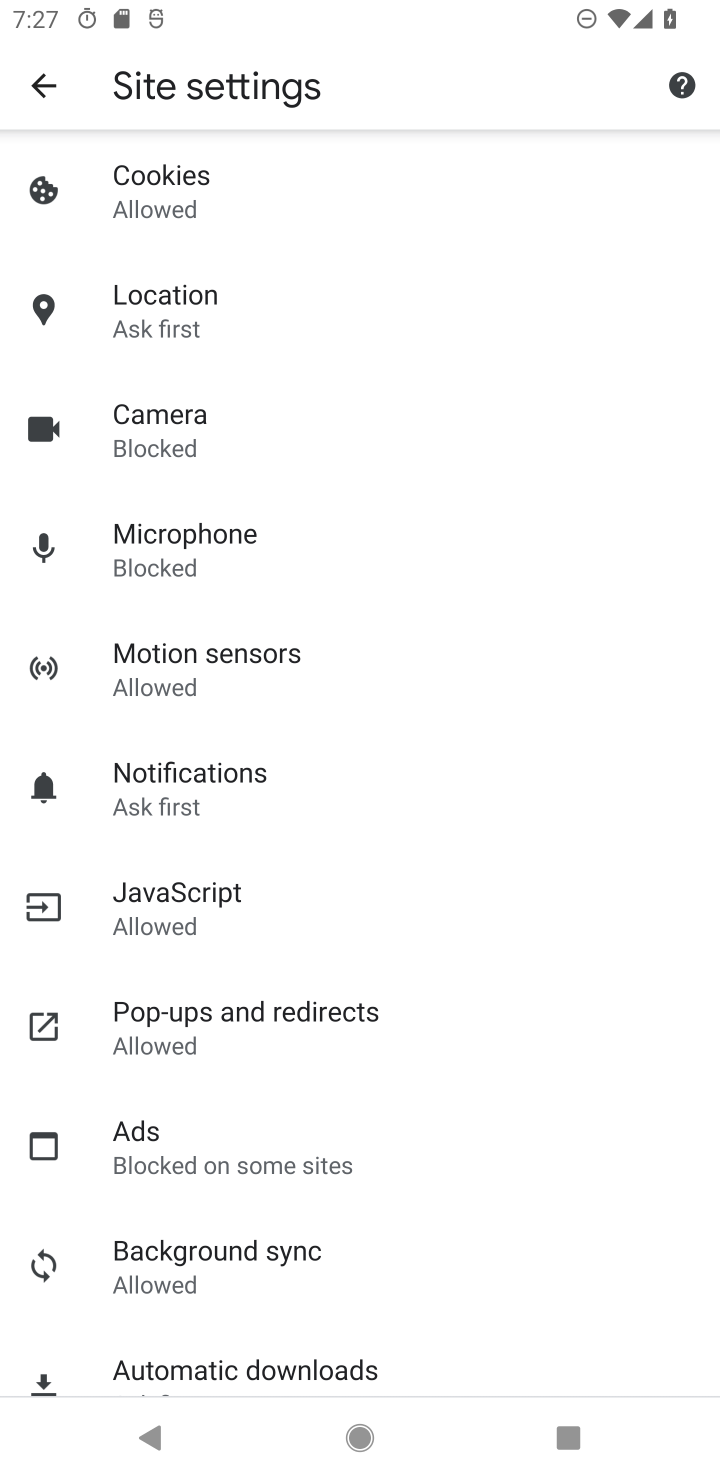
Step 31: click (275, 1017)
Your task to perform on an android device: turn pop-ups on in chrome Image 32: 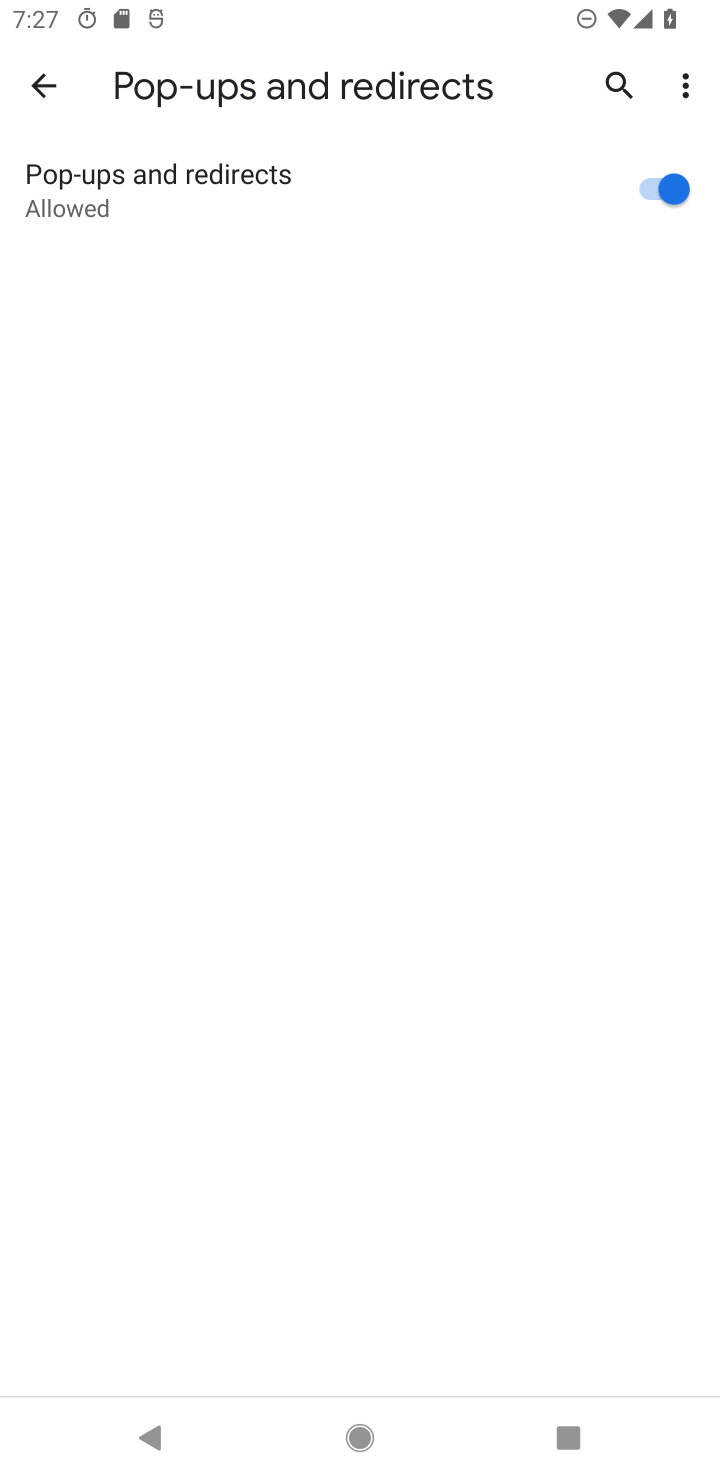
Step 32: task complete